Your task to perform on an android device: Clear the shopping cart on walmart. Add "jbl charge 4" to the cart on walmart, then select checkout. Image 0: 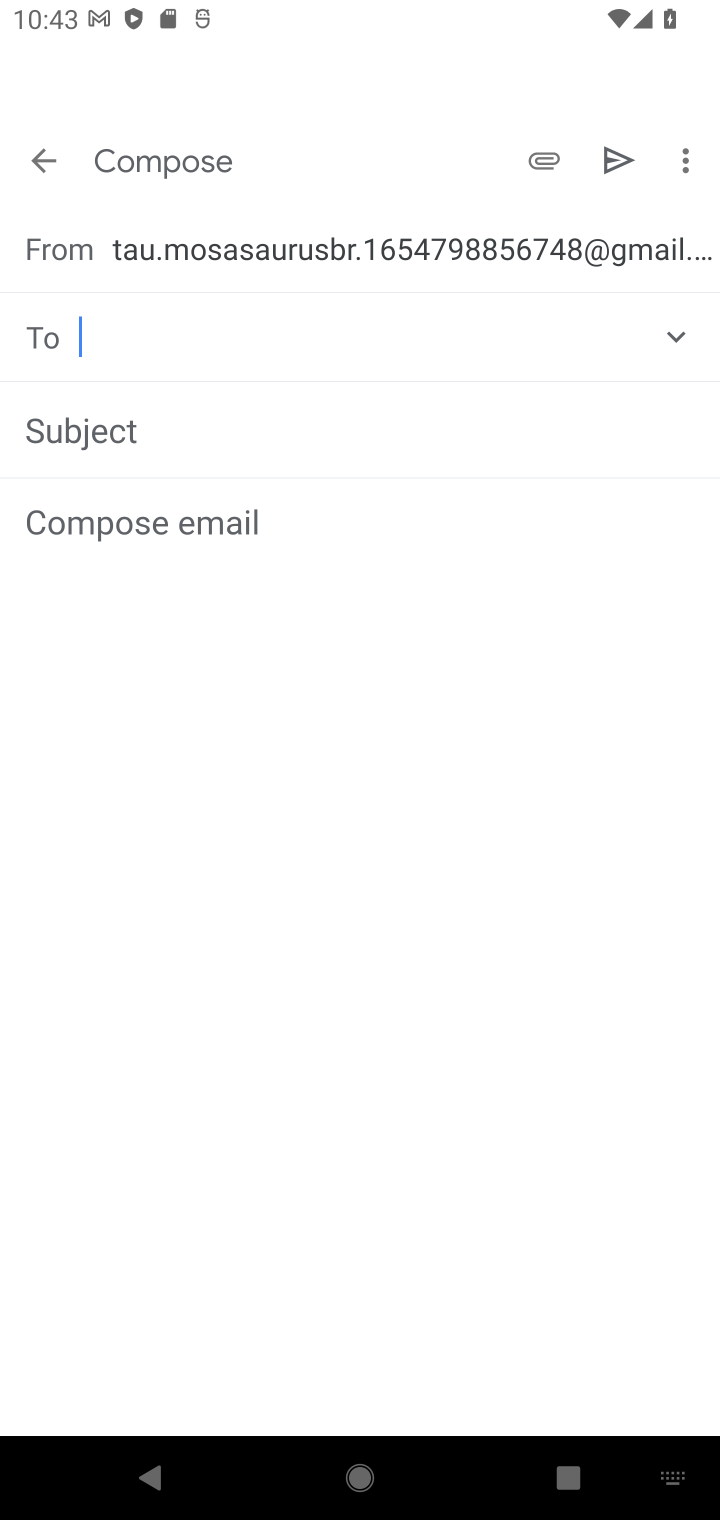
Step 0: press home button
Your task to perform on an android device: Clear the shopping cart on walmart. Add "jbl charge 4" to the cart on walmart, then select checkout. Image 1: 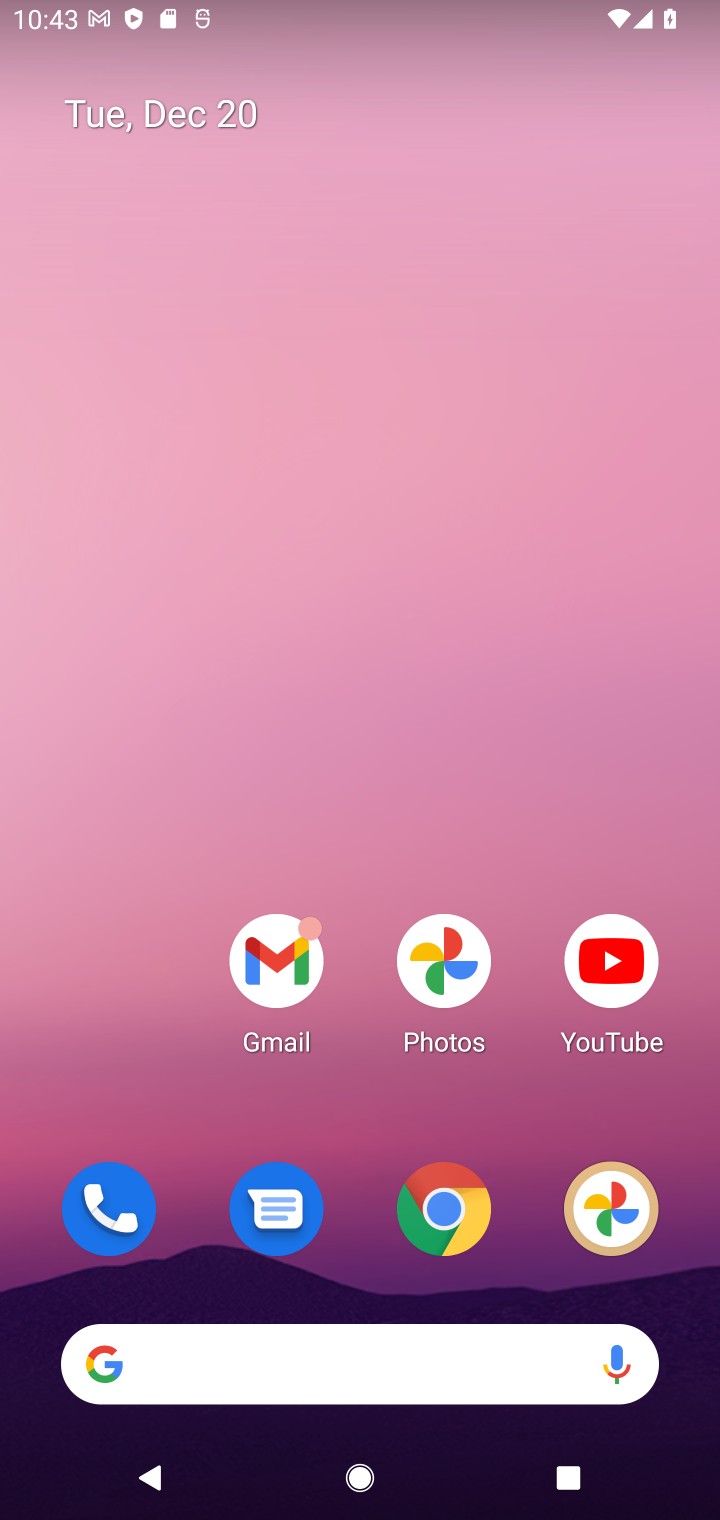
Step 1: click (452, 1213)
Your task to perform on an android device: Clear the shopping cart on walmart. Add "jbl charge 4" to the cart on walmart, then select checkout. Image 2: 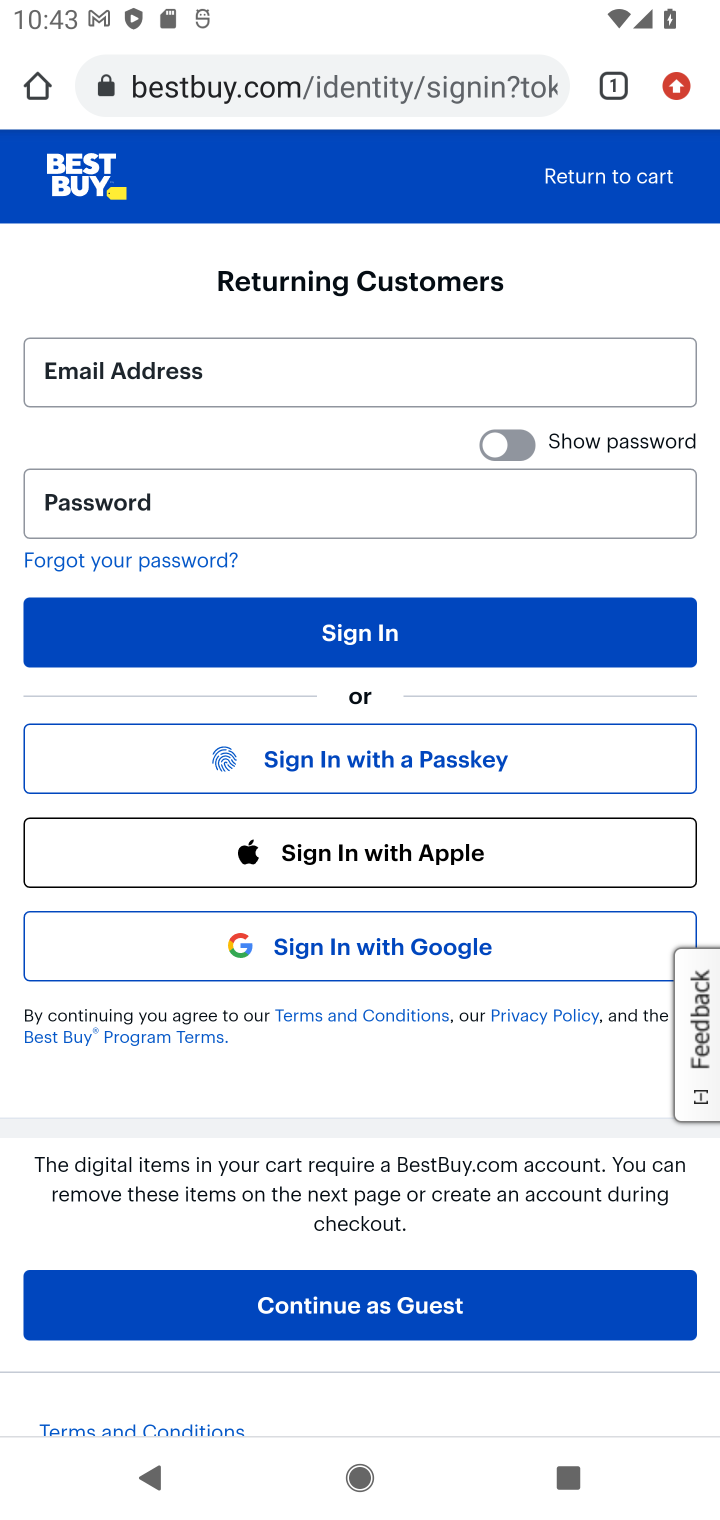
Step 2: click (256, 70)
Your task to perform on an android device: Clear the shopping cart on walmart. Add "jbl charge 4" to the cart on walmart, then select checkout. Image 3: 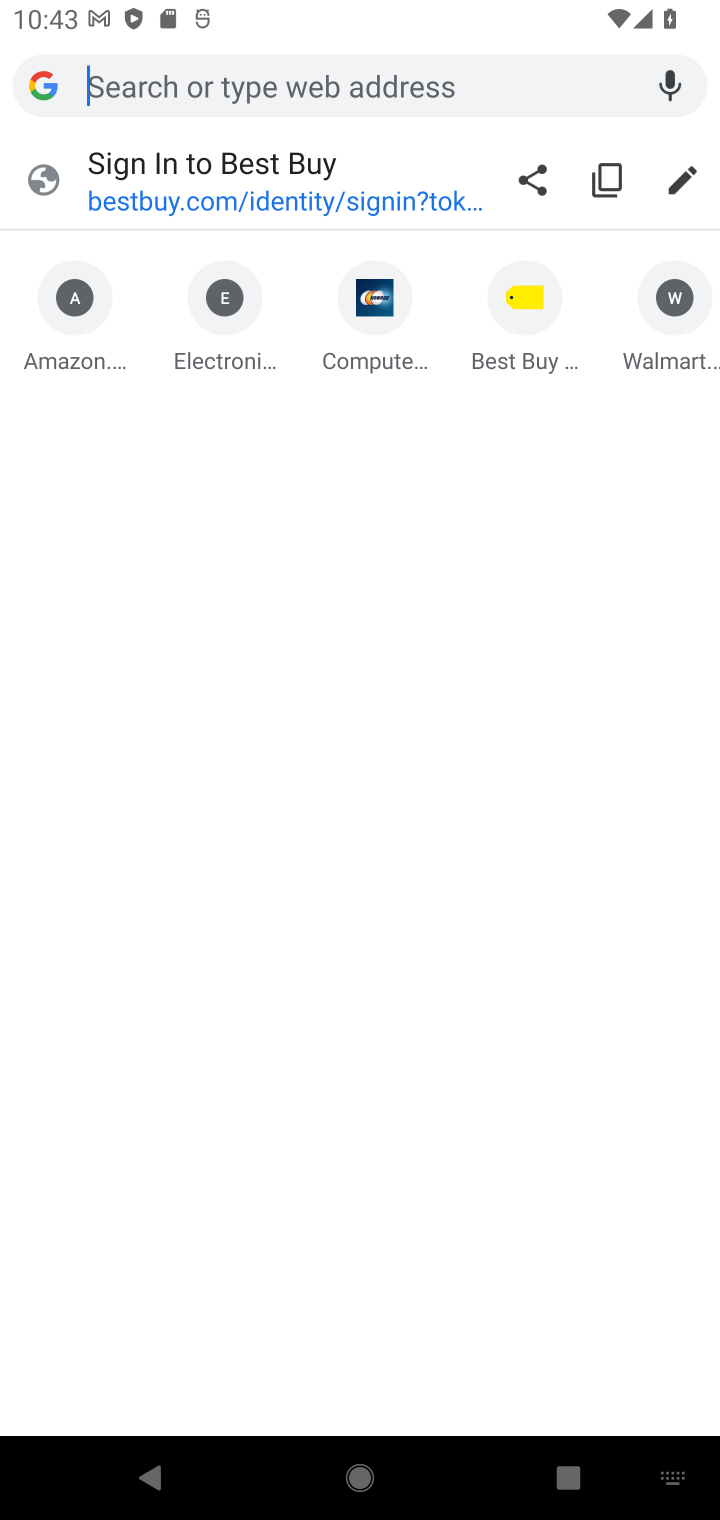
Step 3: type "walmart.com"
Your task to perform on an android device: Clear the shopping cart on walmart. Add "jbl charge 4" to the cart on walmart, then select checkout. Image 4: 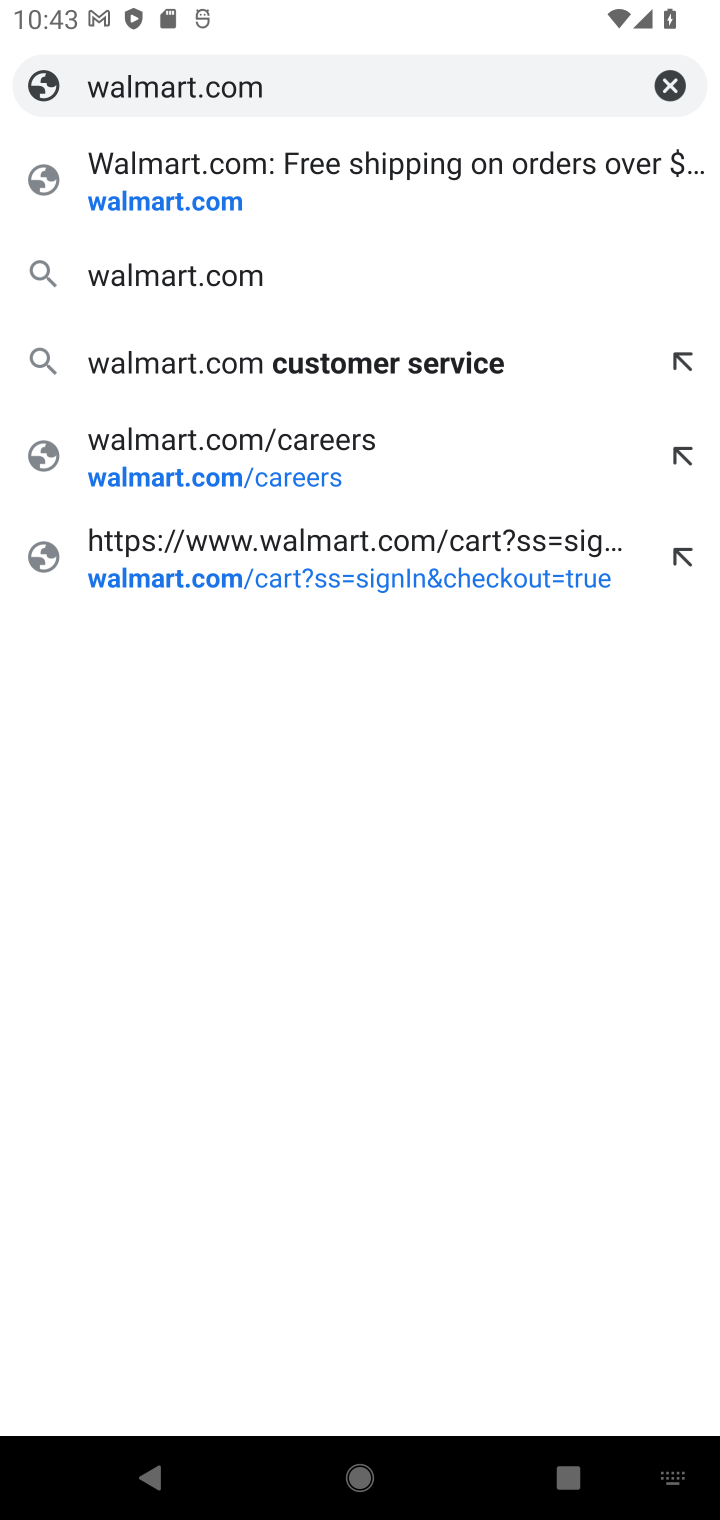
Step 4: click (150, 205)
Your task to perform on an android device: Clear the shopping cart on walmart. Add "jbl charge 4" to the cart on walmart, then select checkout. Image 5: 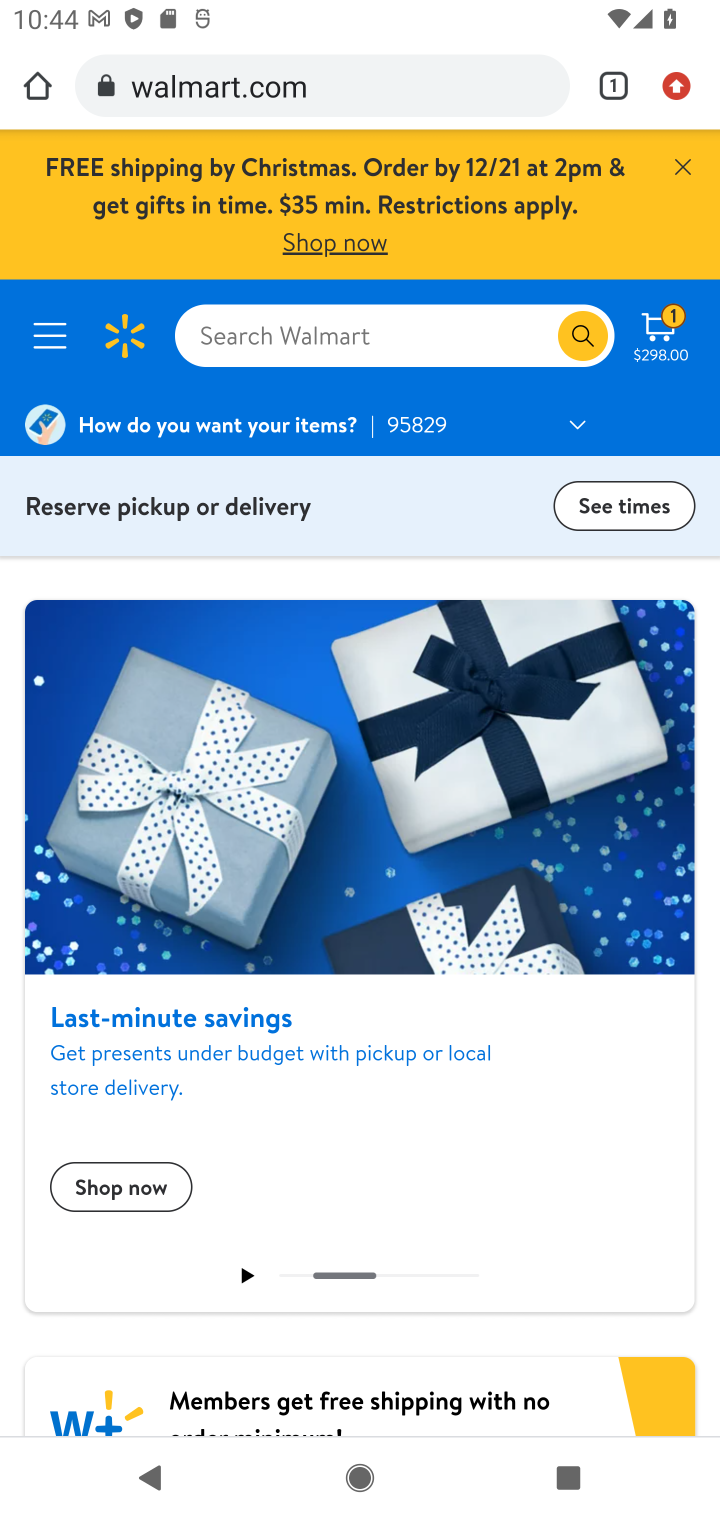
Step 5: click (655, 334)
Your task to perform on an android device: Clear the shopping cart on walmart. Add "jbl charge 4" to the cart on walmart, then select checkout. Image 6: 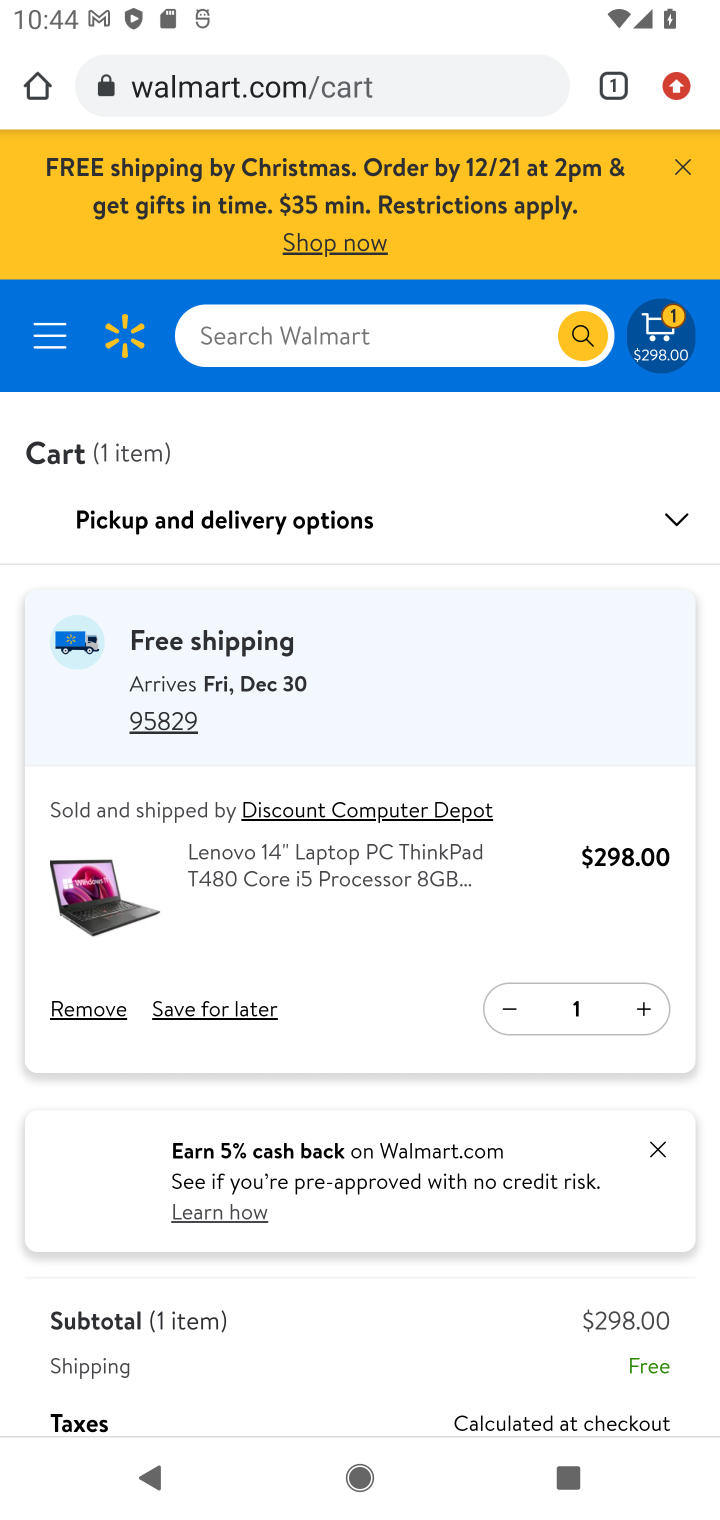
Step 6: click (72, 1008)
Your task to perform on an android device: Clear the shopping cart on walmart. Add "jbl charge 4" to the cart on walmart, then select checkout. Image 7: 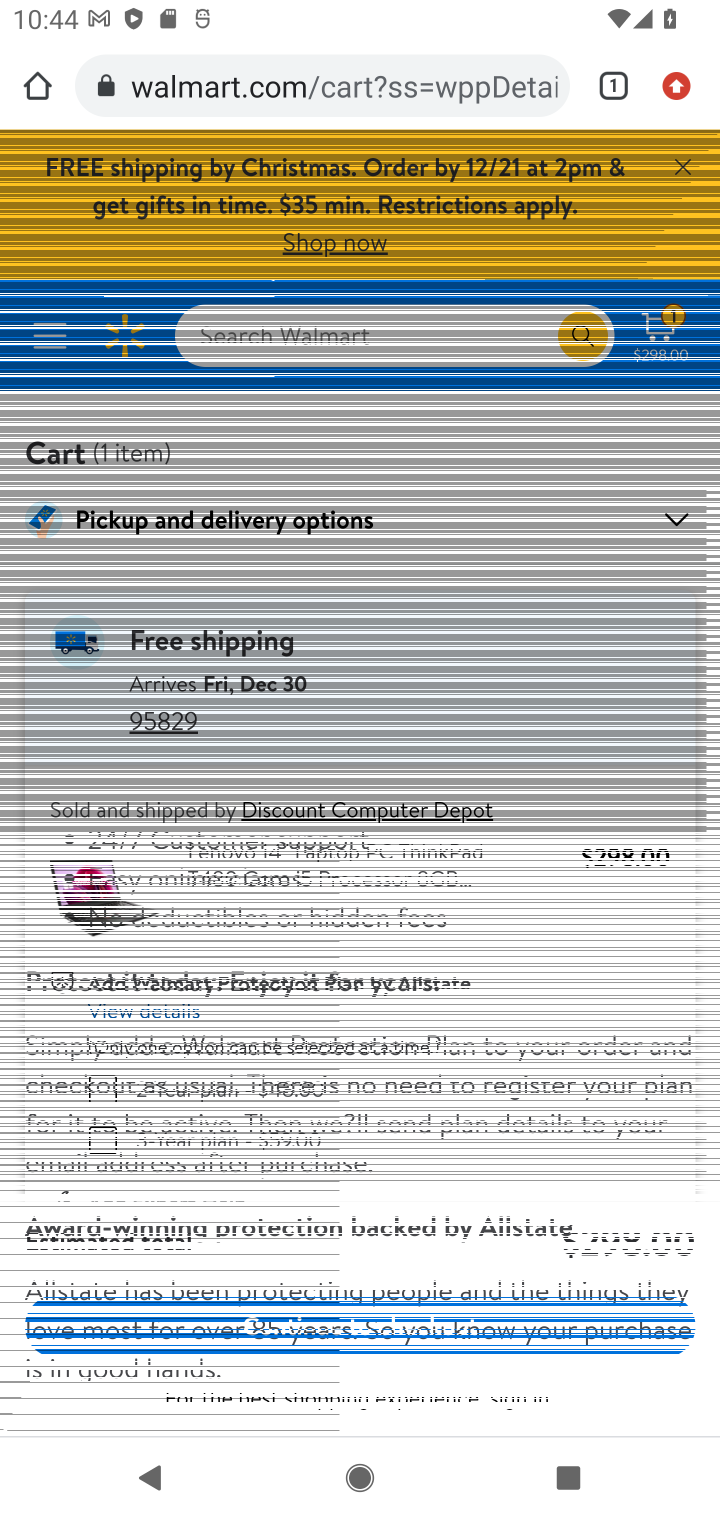
Step 7: drag from (427, 936) to (423, 563)
Your task to perform on an android device: Clear the shopping cart on walmart. Add "jbl charge 4" to the cart on walmart, then select checkout. Image 8: 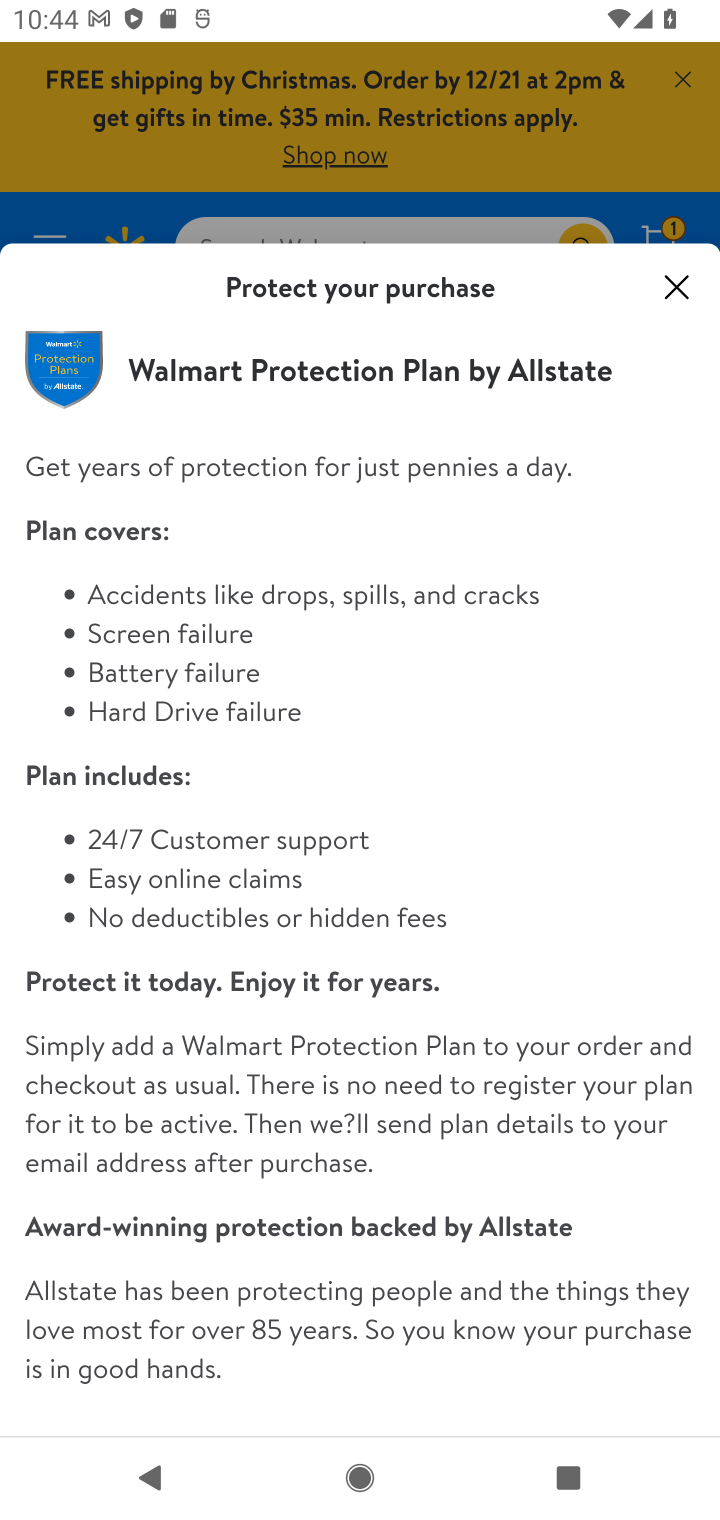
Step 8: click (679, 284)
Your task to perform on an android device: Clear the shopping cart on walmart. Add "jbl charge 4" to the cart on walmart, then select checkout. Image 9: 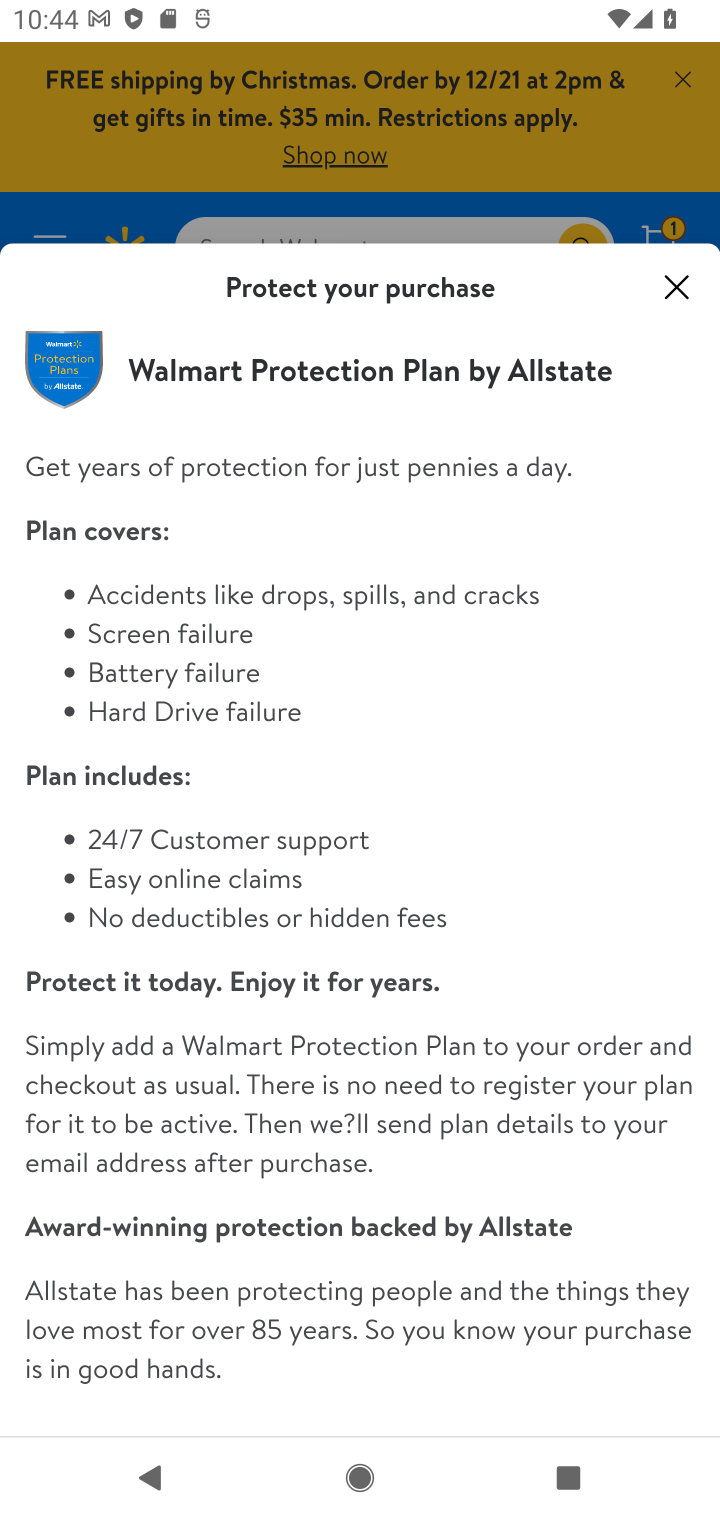
Step 9: click (673, 285)
Your task to perform on an android device: Clear the shopping cart on walmart. Add "jbl charge 4" to the cart on walmart, then select checkout. Image 10: 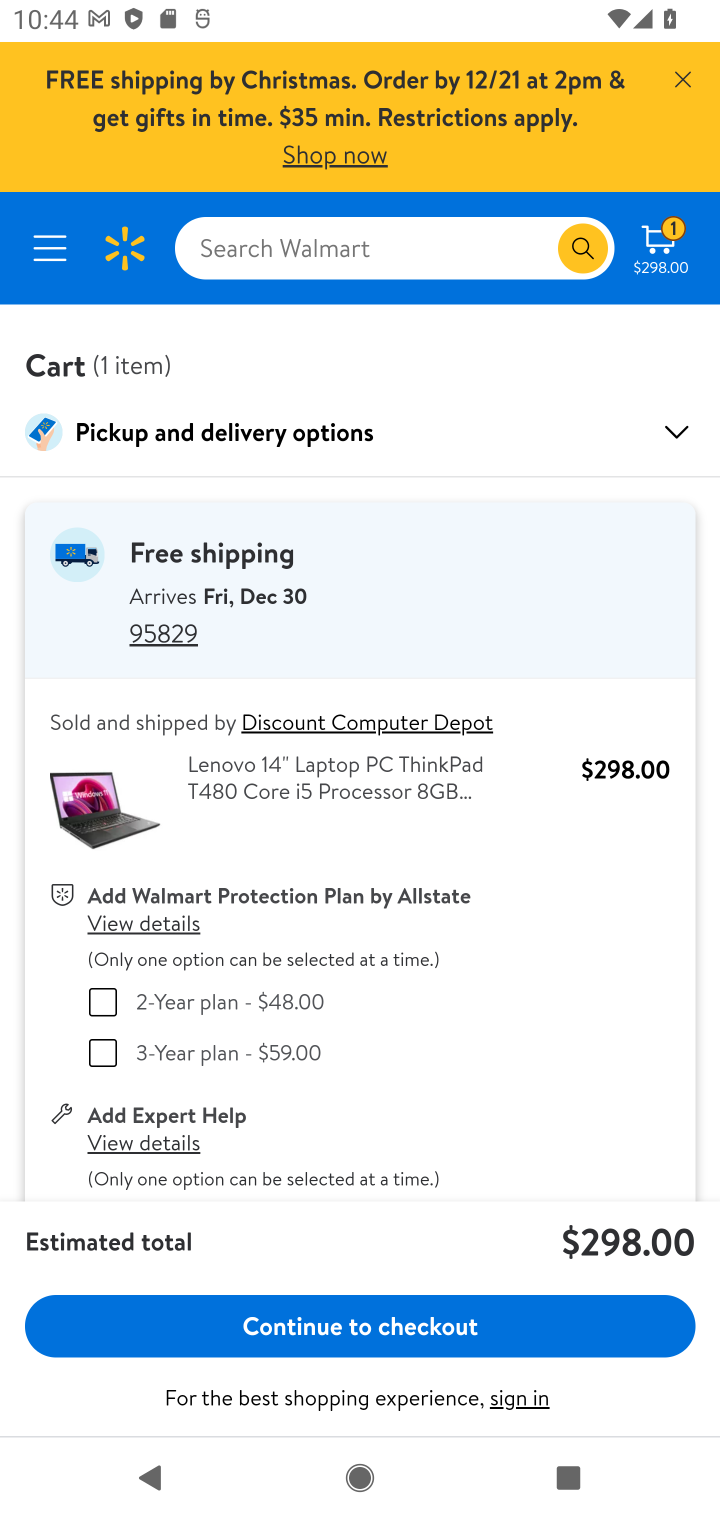
Step 10: drag from (110, 1076) to (163, 631)
Your task to perform on an android device: Clear the shopping cart on walmart. Add "jbl charge 4" to the cart on walmart, then select checkout. Image 11: 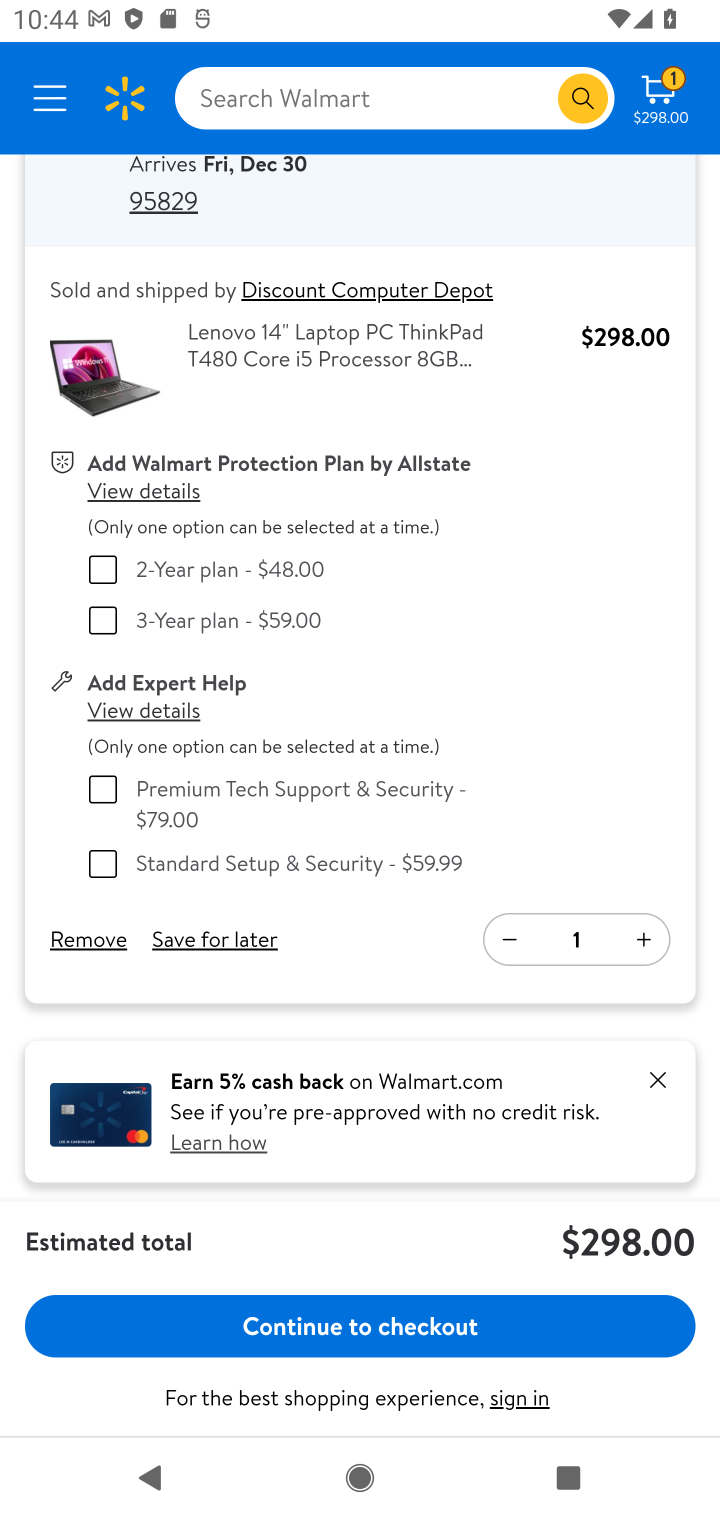
Step 11: click (69, 940)
Your task to perform on an android device: Clear the shopping cart on walmart. Add "jbl charge 4" to the cart on walmart, then select checkout. Image 12: 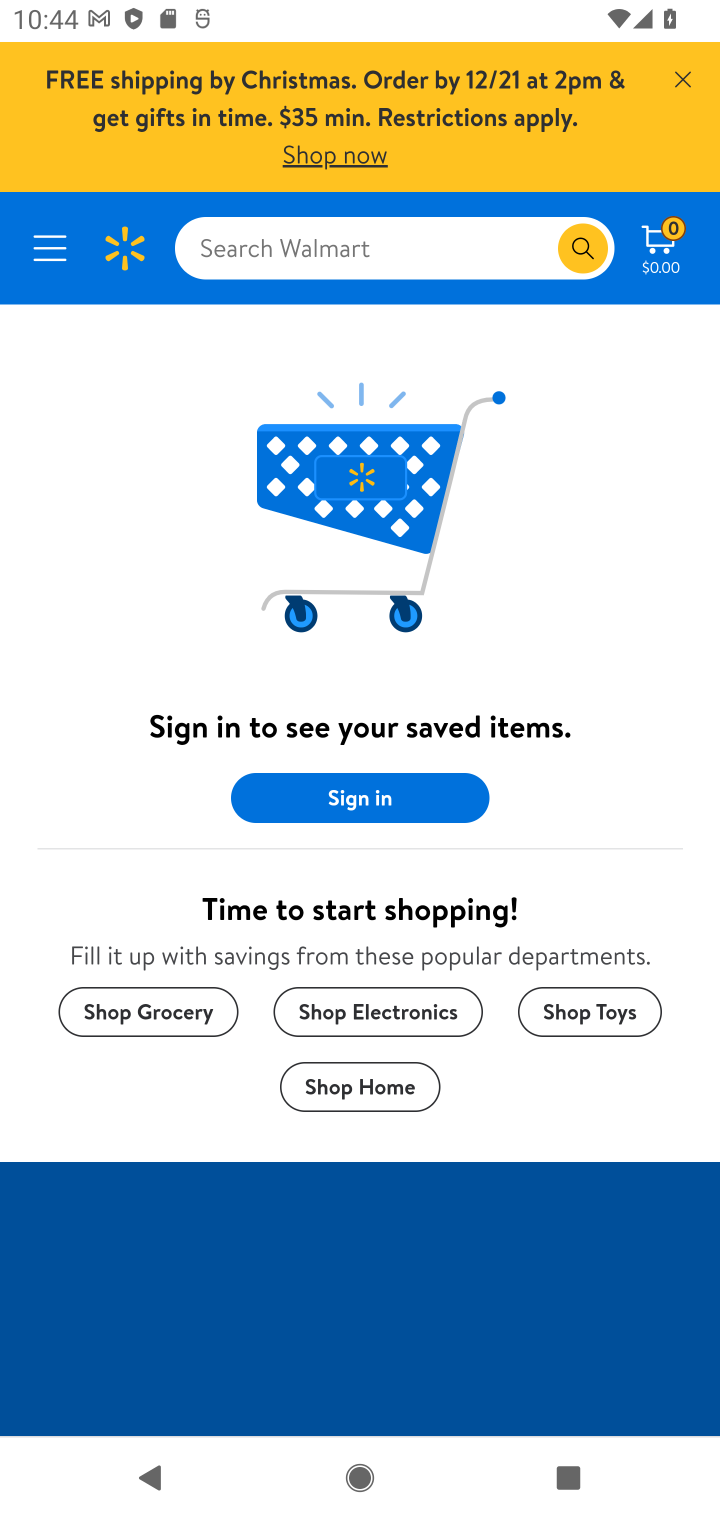
Step 12: click (216, 262)
Your task to perform on an android device: Clear the shopping cart on walmart. Add "jbl charge 4" to the cart on walmart, then select checkout. Image 13: 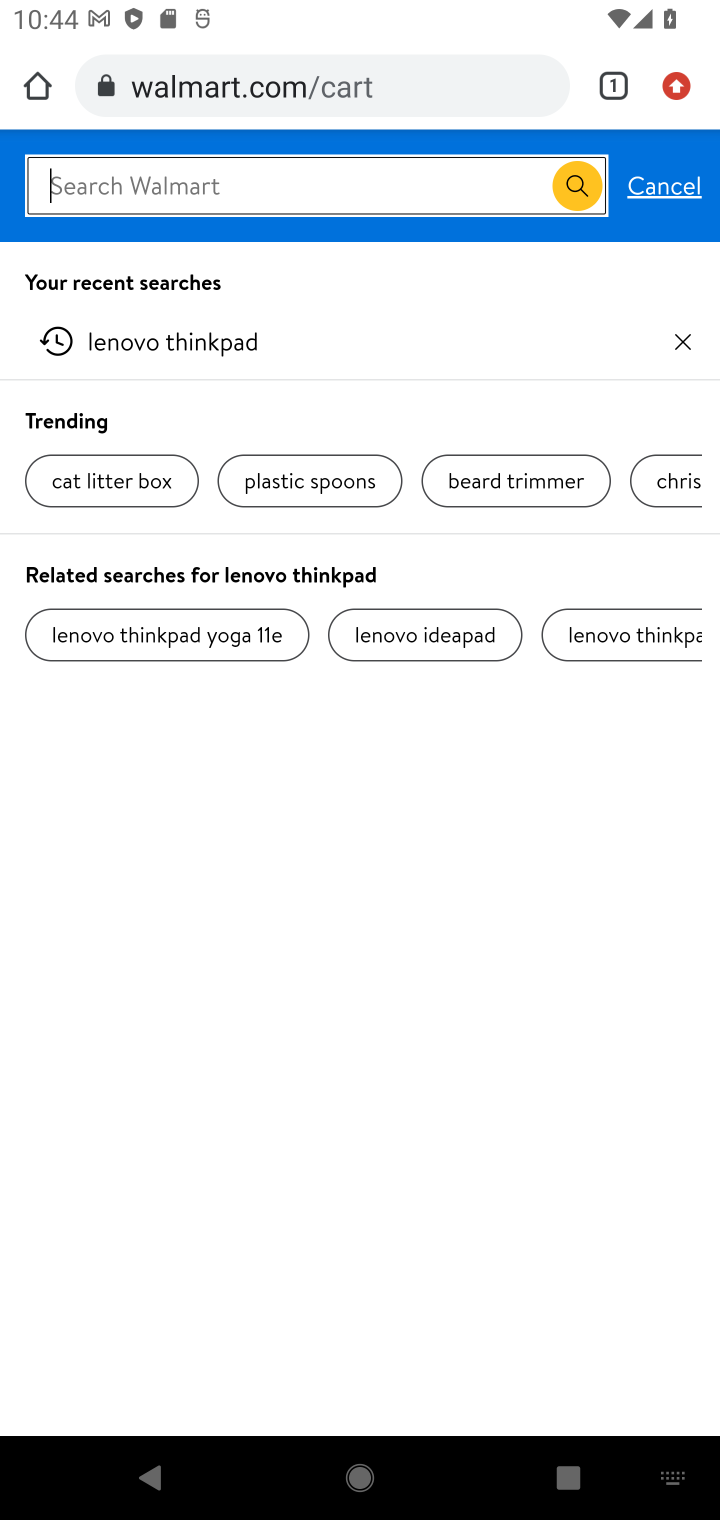
Step 13: type "jbl charge 4"
Your task to perform on an android device: Clear the shopping cart on walmart. Add "jbl charge 4" to the cart on walmart, then select checkout. Image 14: 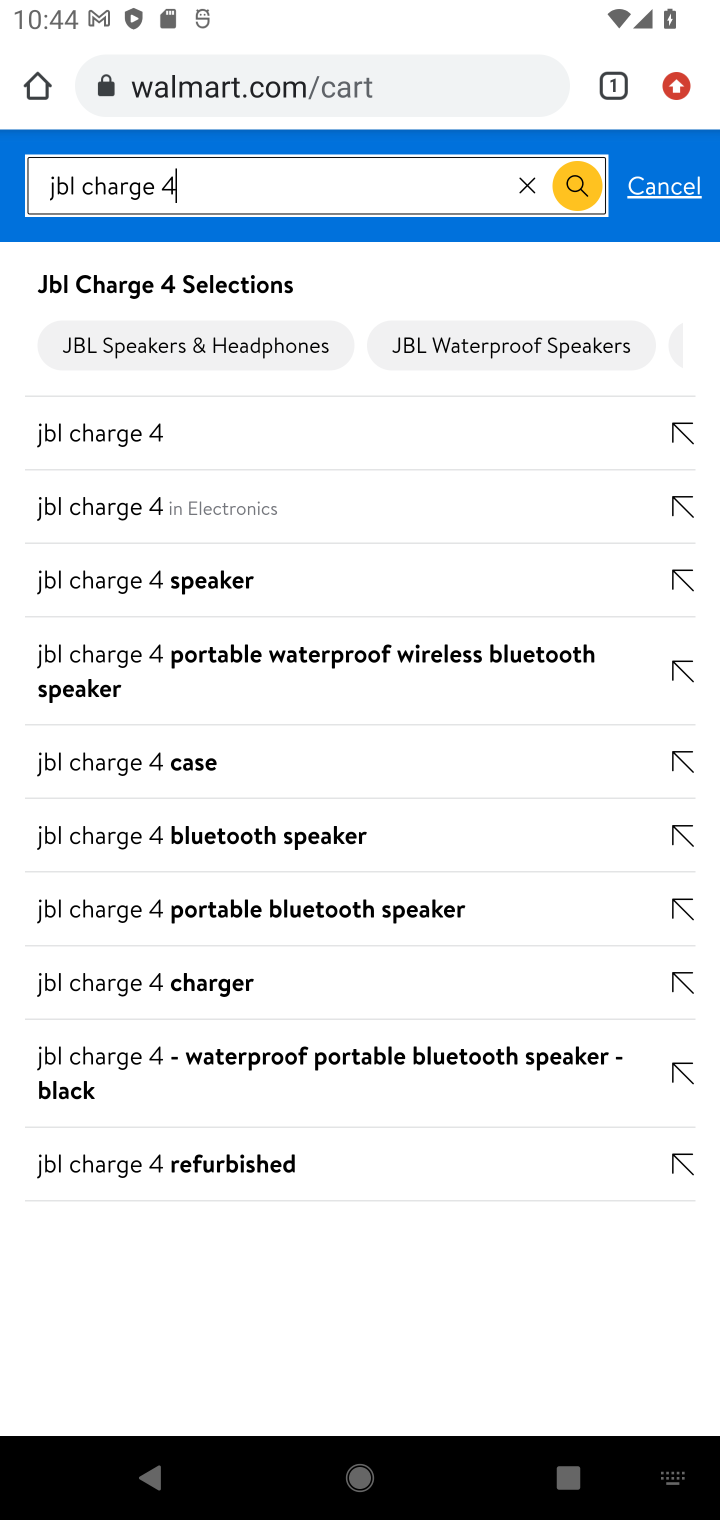
Step 14: click (99, 434)
Your task to perform on an android device: Clear the shopping cart on walmart. Add "jbl charge 4" to the cart on walmart, then select checkout. Image 15: 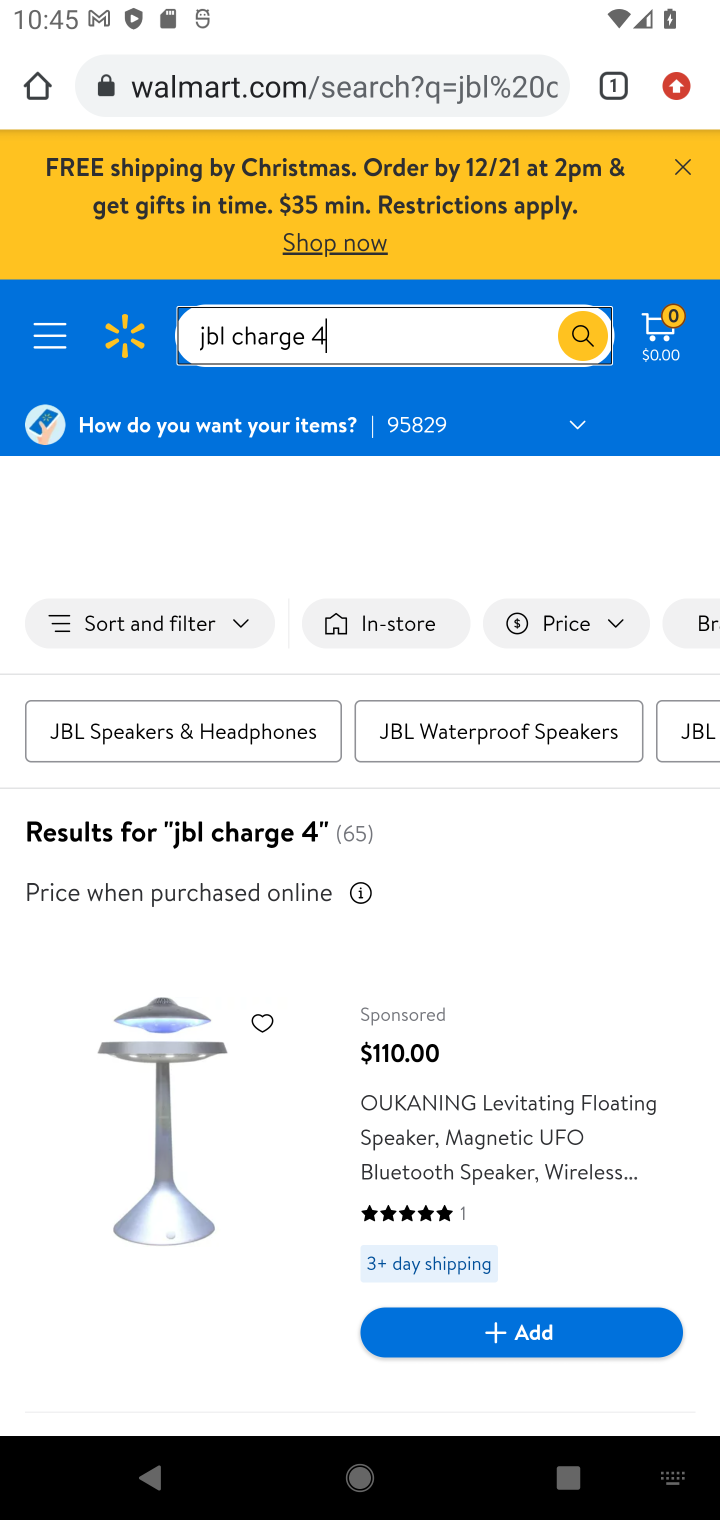
Step 15: drag from (347, 1021) to (334, 596)
Your task to perform on an android device: Clear the shopping cart on walmart. Add "jbl charge 4" to the cart on walmart, then select checkout. Image 16: 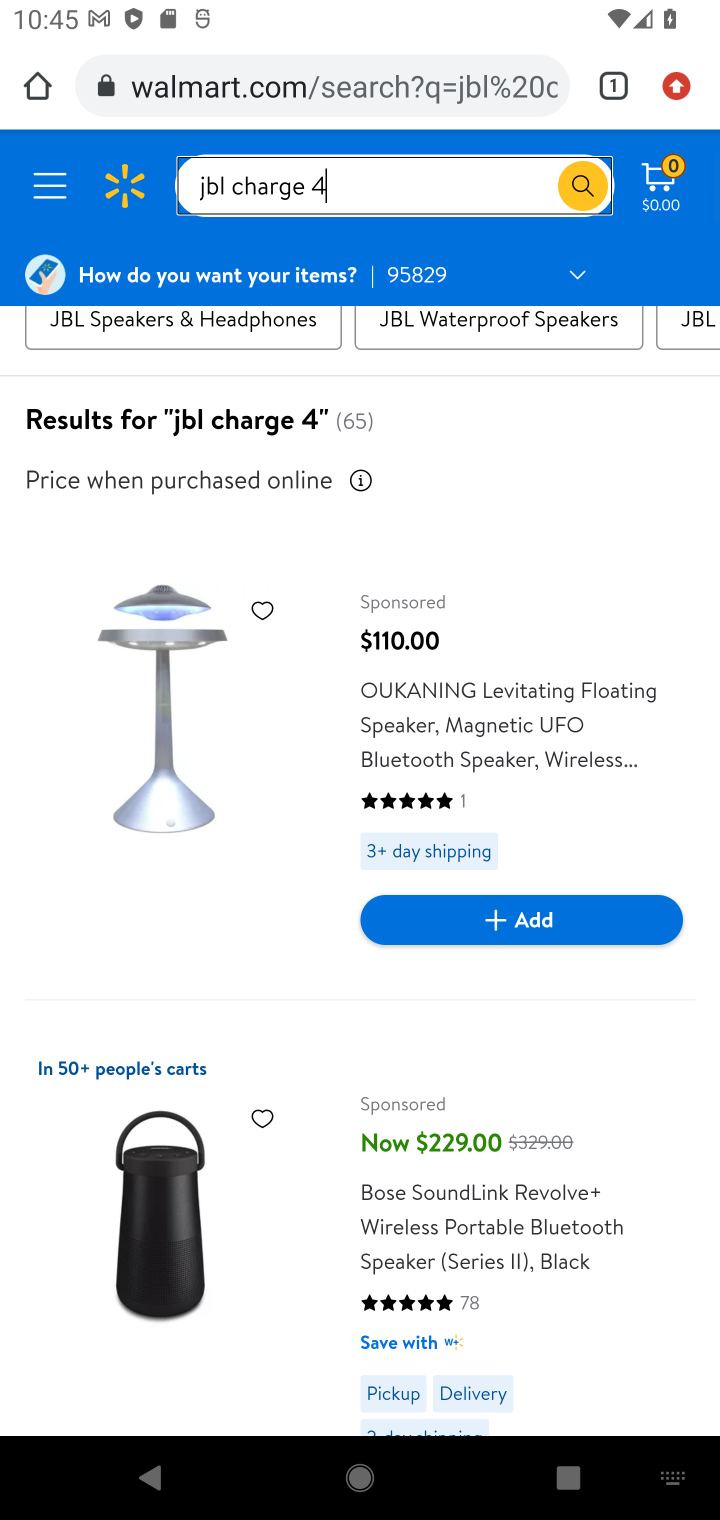
Step 16: drag from (344, 1109) to (347, 565)
Your task to perform on an android device: Clear the shopping cart on walmart. Add "jbl charge 4" to the cart on walmart, then select checkout. Image 17: 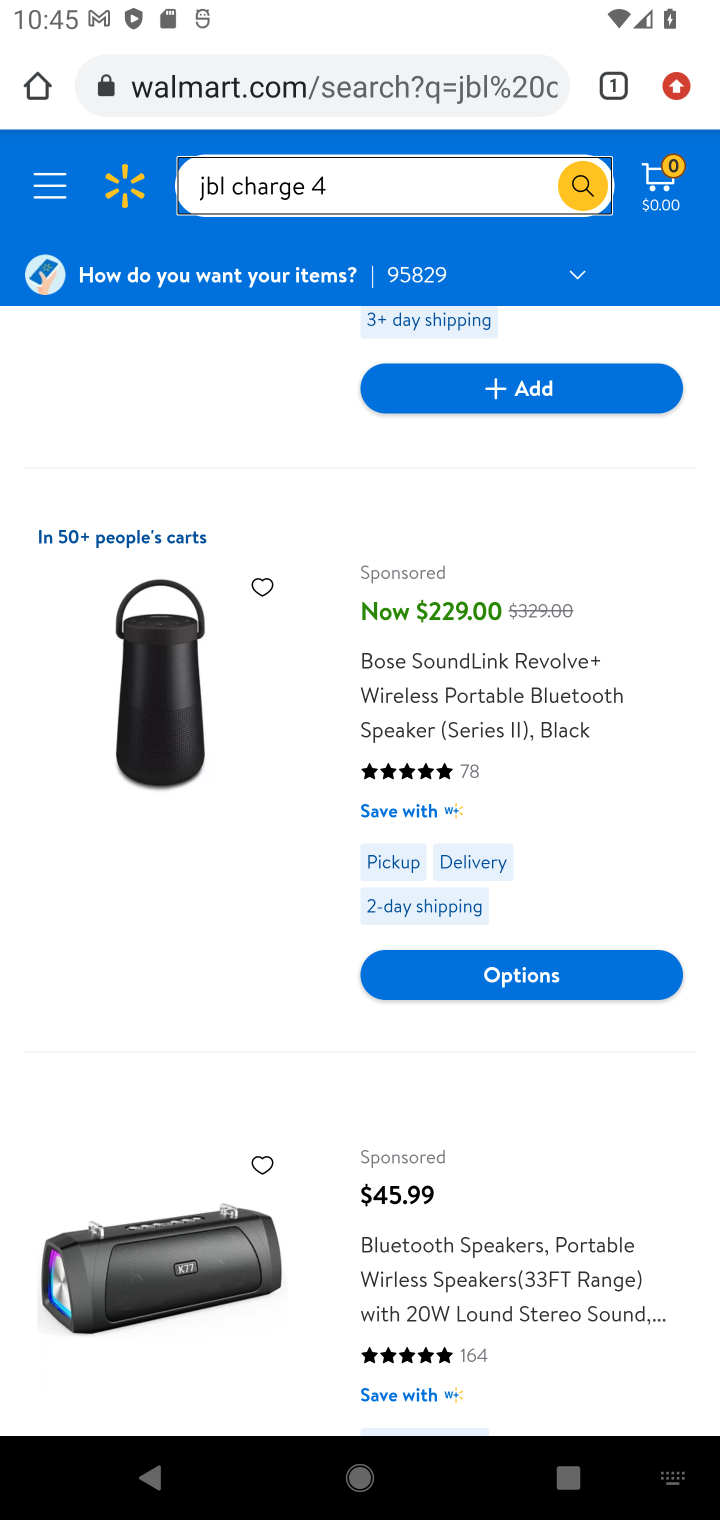
Step 17: drag from (330, 1173) to (247, 616)
Your task to perform on an android device: Clear the shopping cart on walmart. Add "jbl charge 4" to the cart on walmart, then select checkout. Image 18: 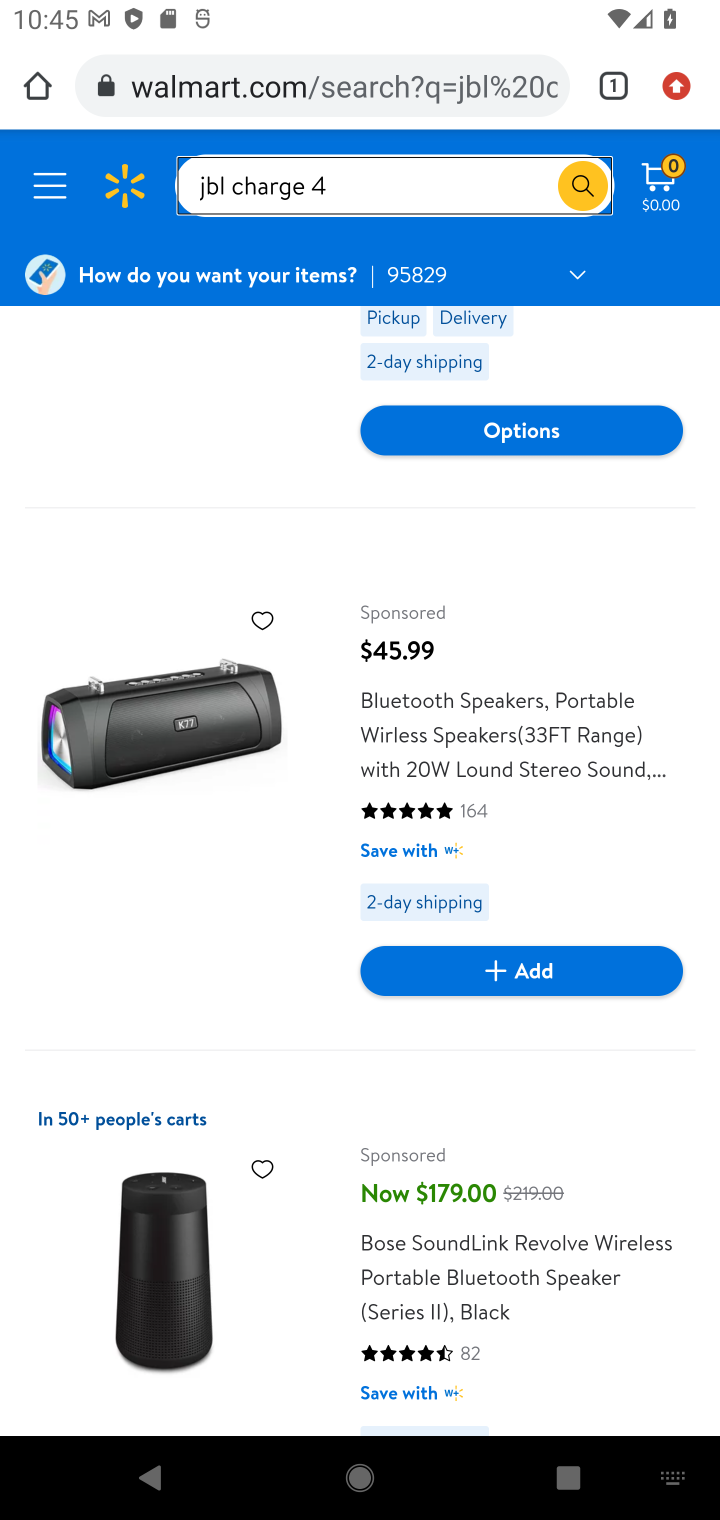
Step 18: drag from (319, 1215) to (303, 521)
Your task to perform on an android device: Clear the shopping cart on walmart. Add "jbl charge 4" to the cart on walmart, then select checkout. Image 19: 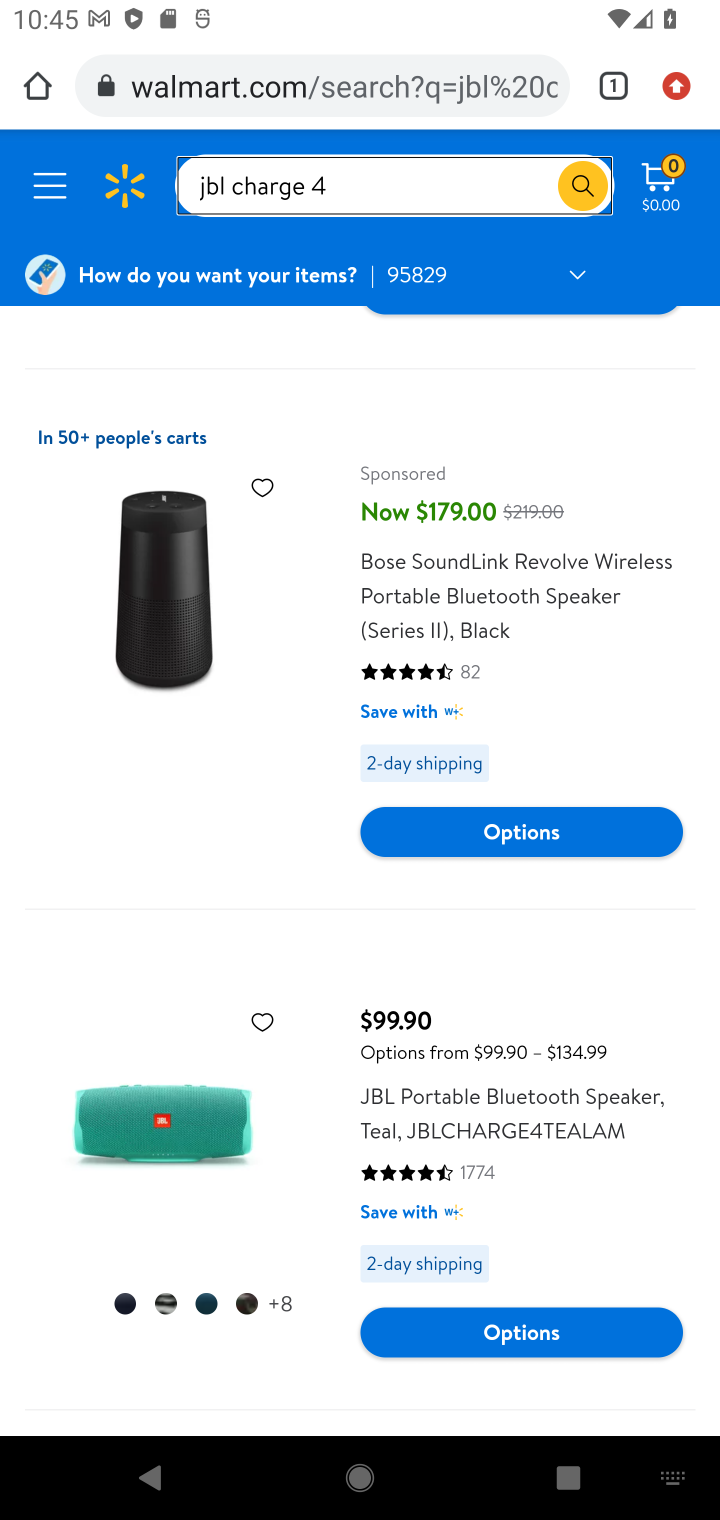
Step 19: drag from (318, 1177) to (318, 881)
Your task to perform on an android device: Clear the shopping cart on walmart. Add "jbl charge 4" to the cart on walmart, then select checkout. Image 20: 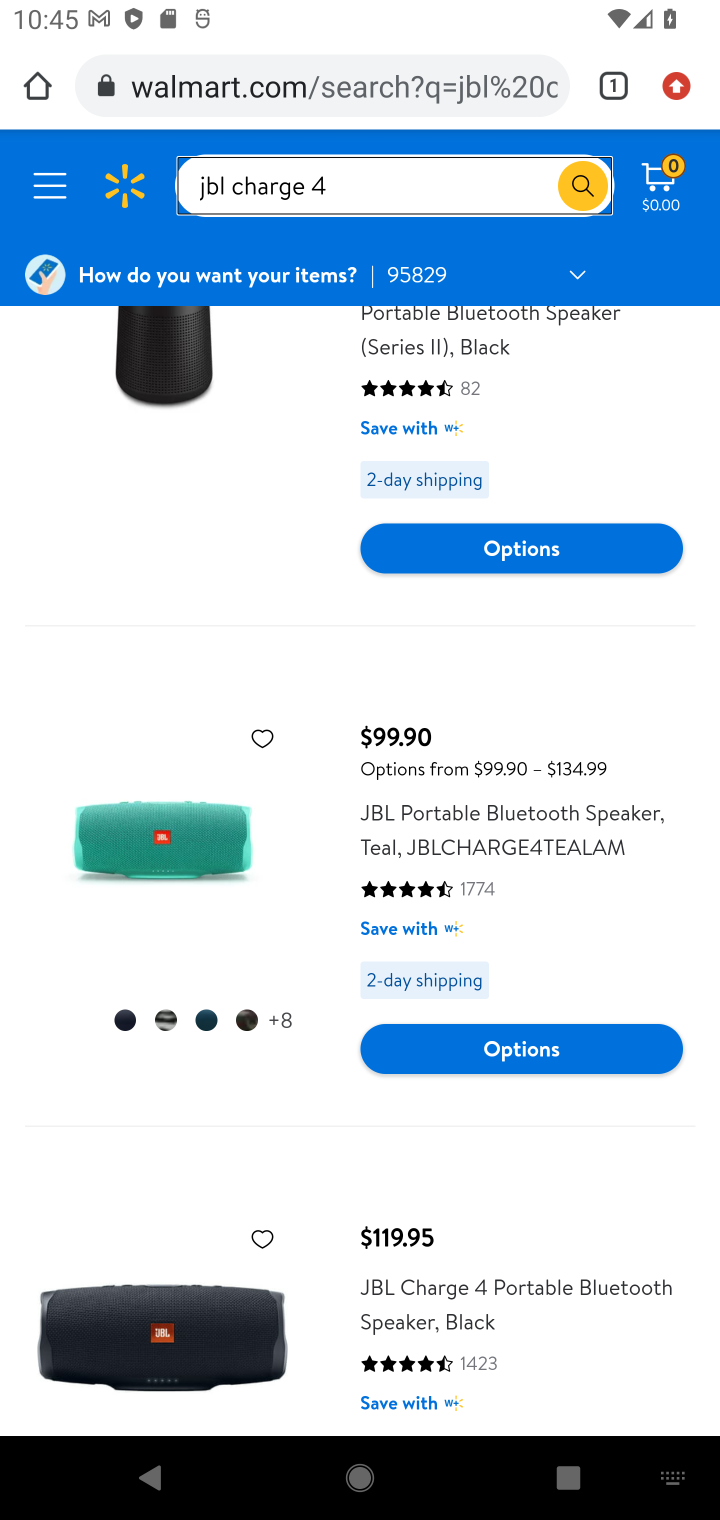
Step 20: click (462, 842)
Your task to perform on an android device: Clear the shopping cart on walmart. Add "jbl charge 4" to the cart on walmart, then select checkout. Image 21: 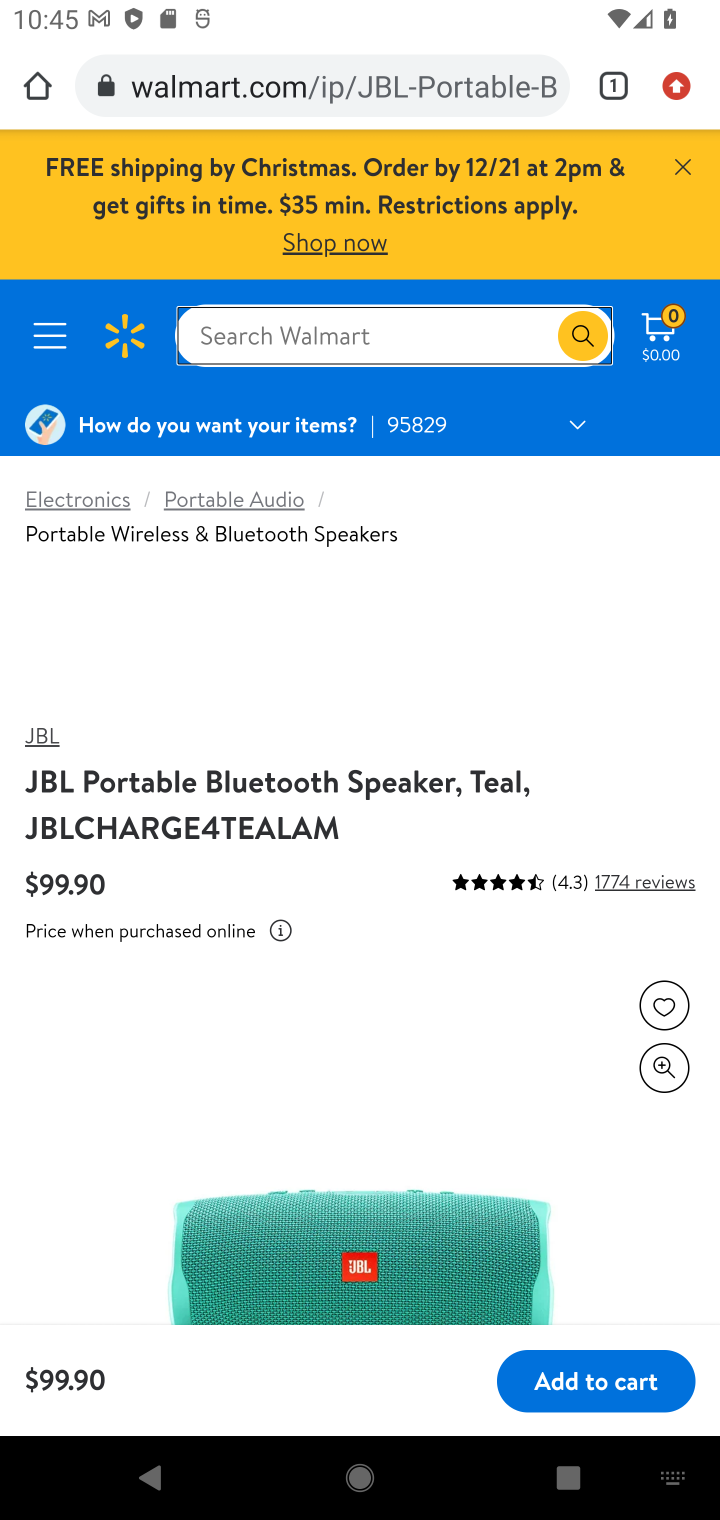
Step 21: click (605, 1388)
Your task to perform on an android device: Clear the shopping cart on walmart. Add "jbl charge 4" to the cart on walmart, then select checkout. Image 22: 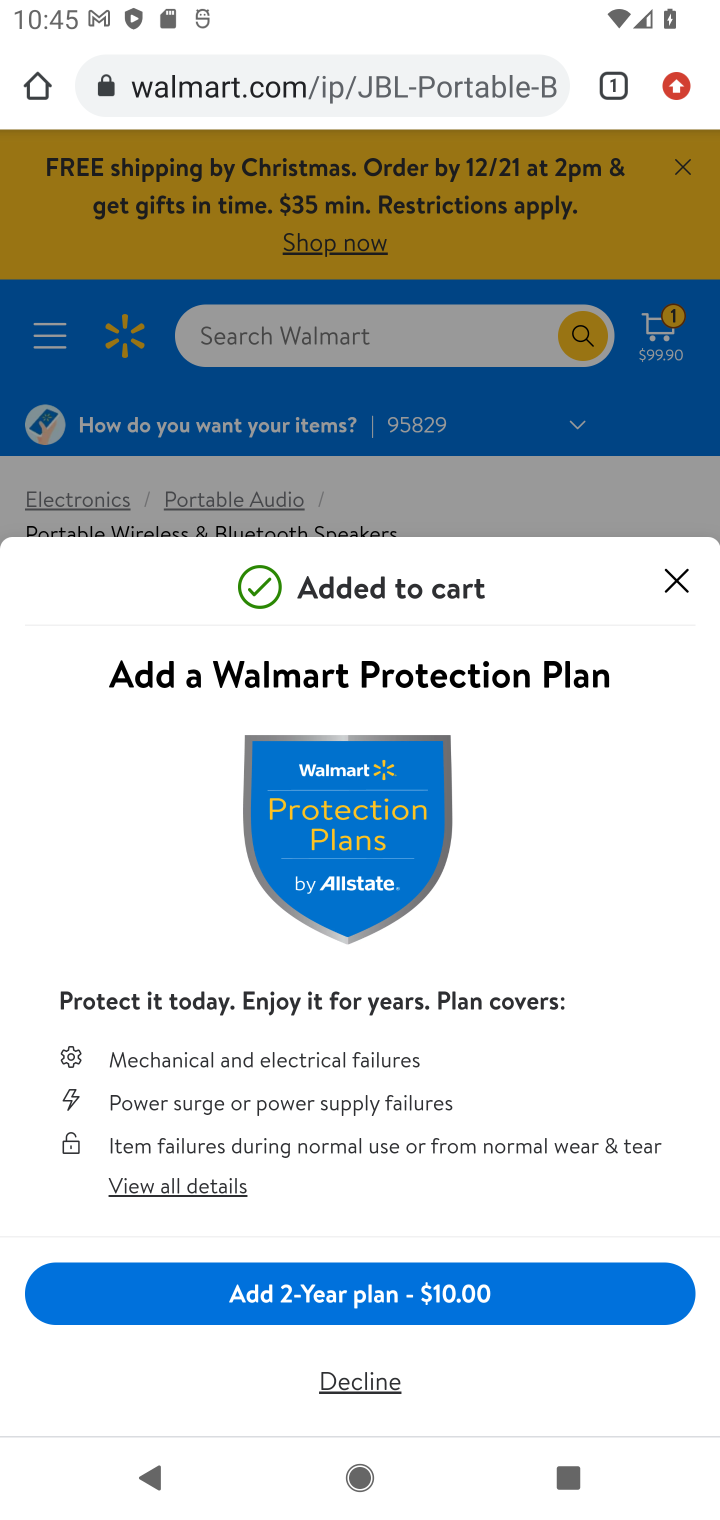
Step 22: click (654, 339)
Your task to perform on an android device: Clear the shopping cart on walmart. Add "jbl charge 4" to the cart on walmart, then select checkout. Image 23: 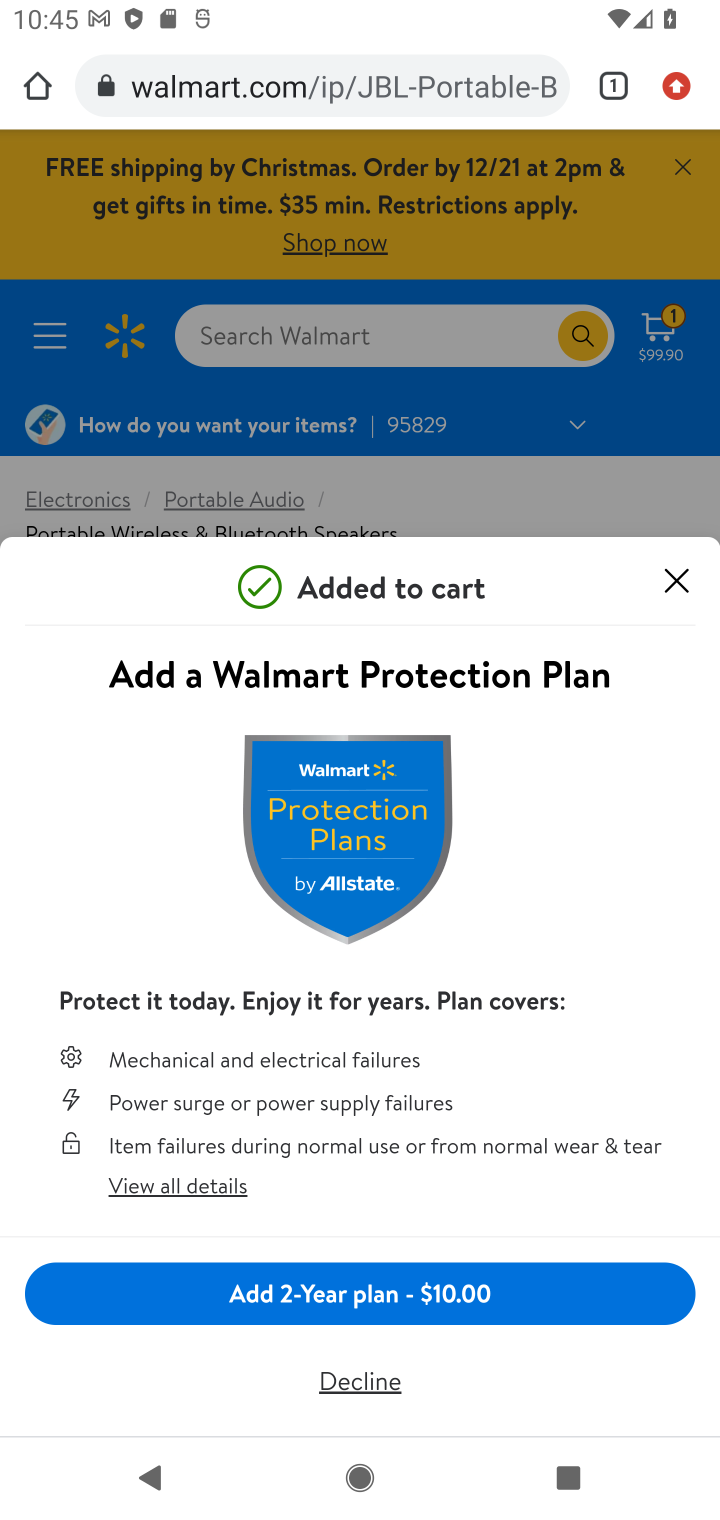
Step 23: click (681, 586)
Your task to perform on an android device: Clear the shopping cart on walmart. Add "jbl charge 4" to the cart on walmart, then select checkout. Image 24: 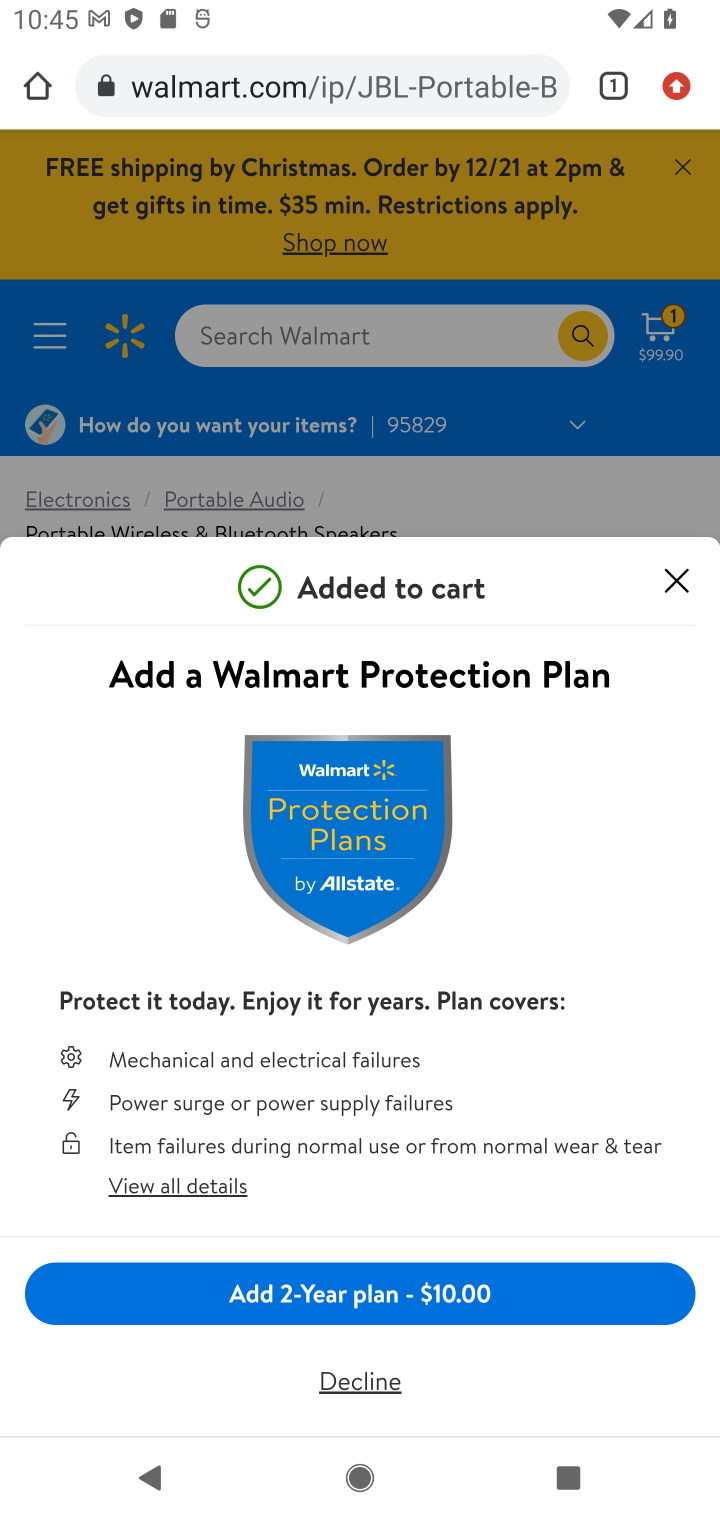
Step 24: click (657, 338)
Your task to perform on an android device: Clear the shopping cart on walmart. Add "jbl charge 4" to the cart on walmart, then select checkout. Image 25: 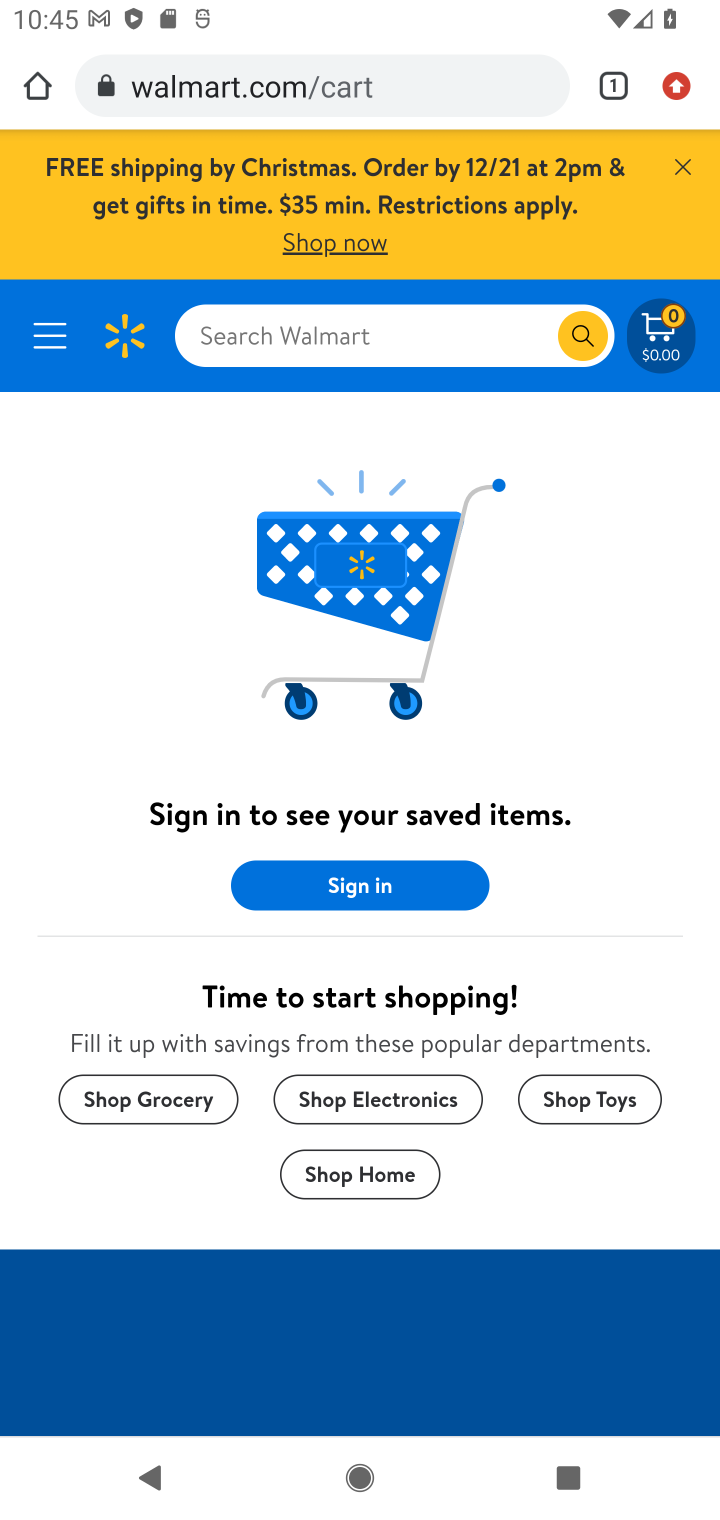
Step 25: click (358, 331)
Your task to perform on an android device: Clear the shopping cart on walmart. Add "jbl charge 4" to the cart on walmart, then select checkout. Image 26: 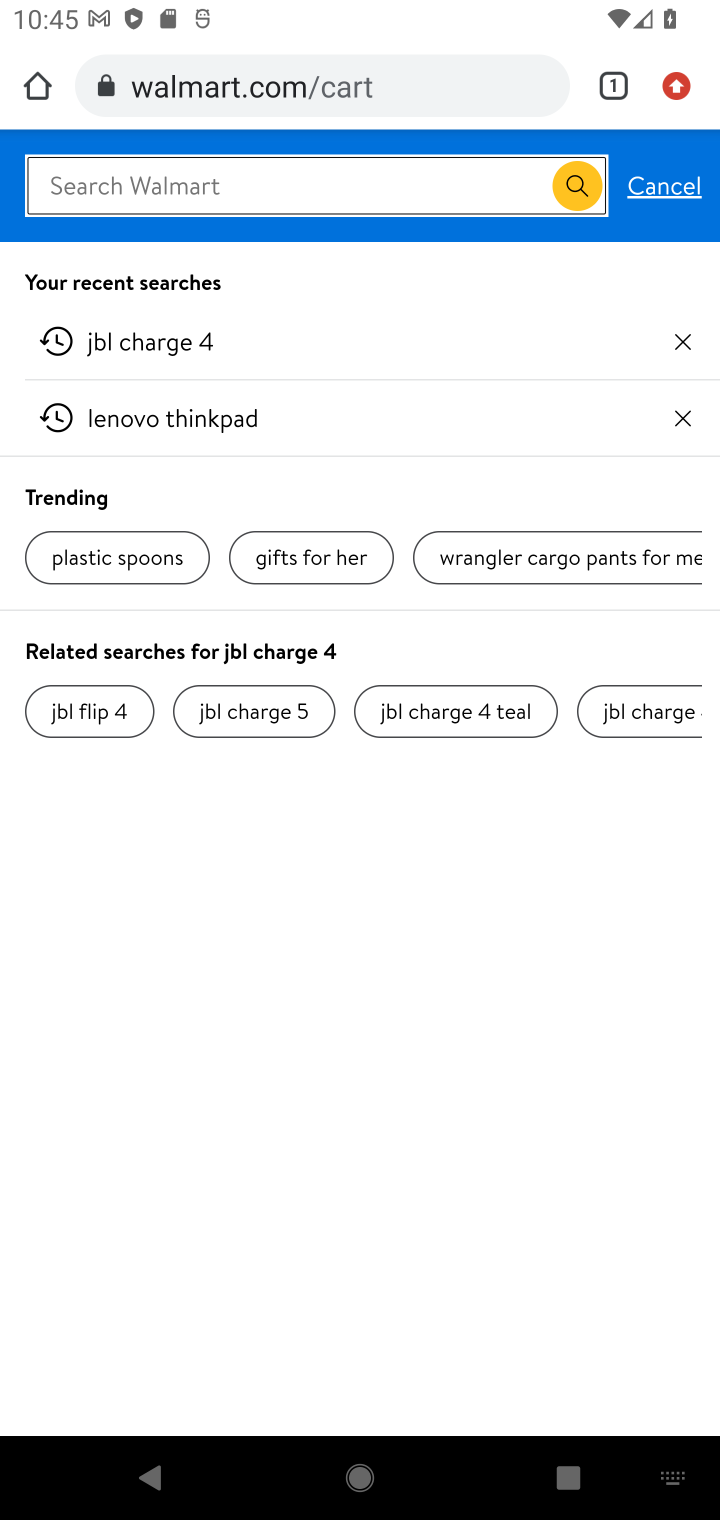
Step 26: click (152, 356)
Your task to perform on an android device: Clear the shopping cart on walmart. Add "jbl charge 4" to the cart on walmart, then select checkout. Image 27: 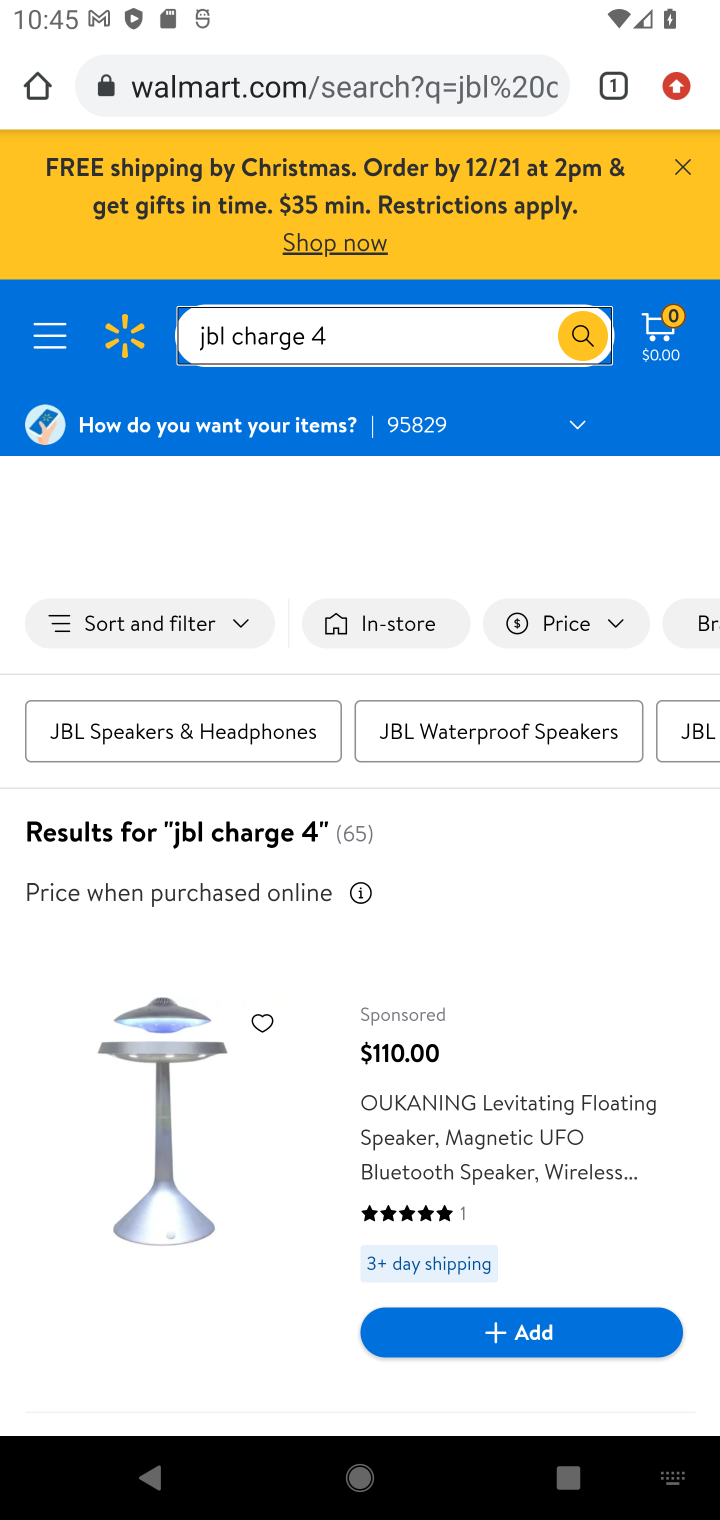
Step 27: drag from (248, 990) to (200, 331)
Your task to perform on an android device: Clear the shopping cart on walmart. Add "jbl charge 4" to the cart on walmart, then select checkout. Image 28: 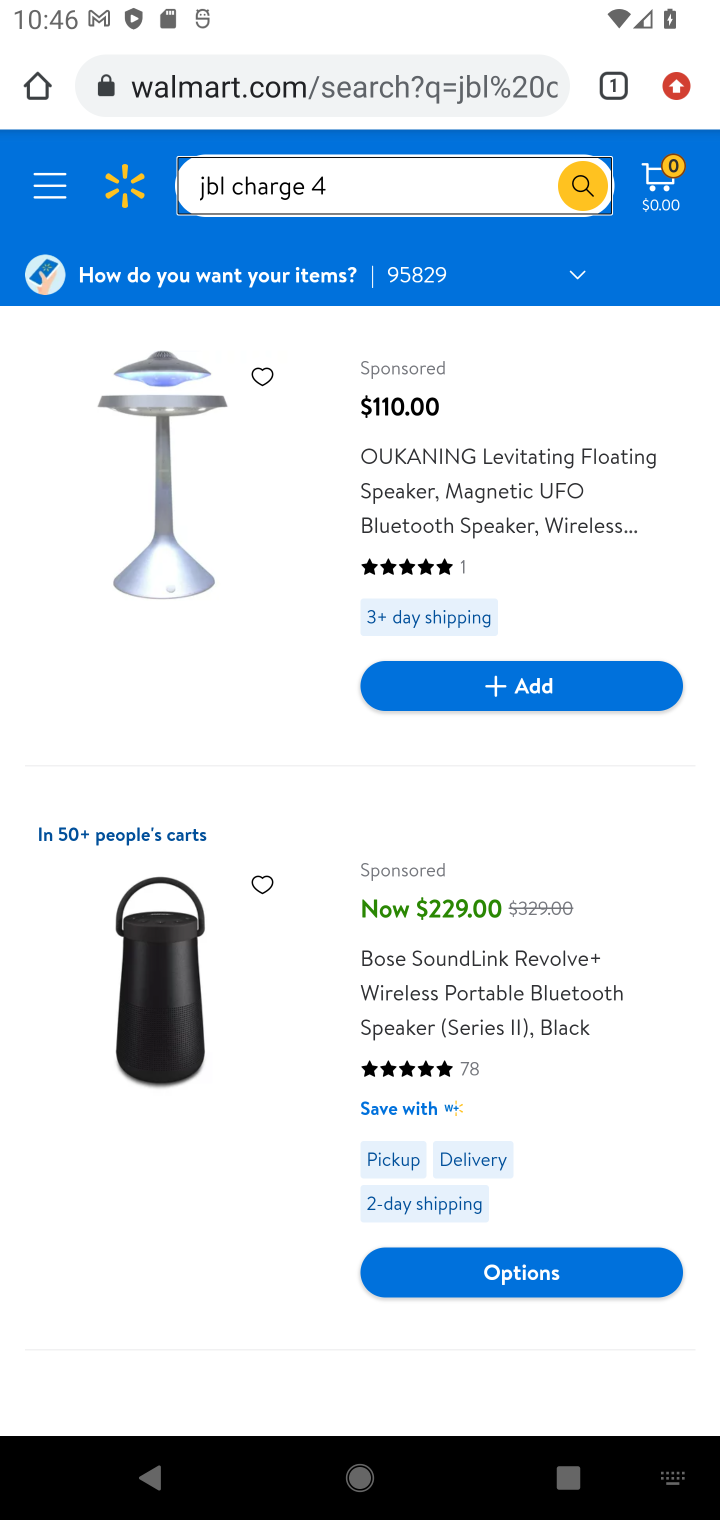
Step 28: drag from (420, 1082) to (381, 465)
Your task to perform on an android device: Clear the shopping cart on walmart. Add "jbl charge 4" to the cart on walmart, then select checkout. Image 29: 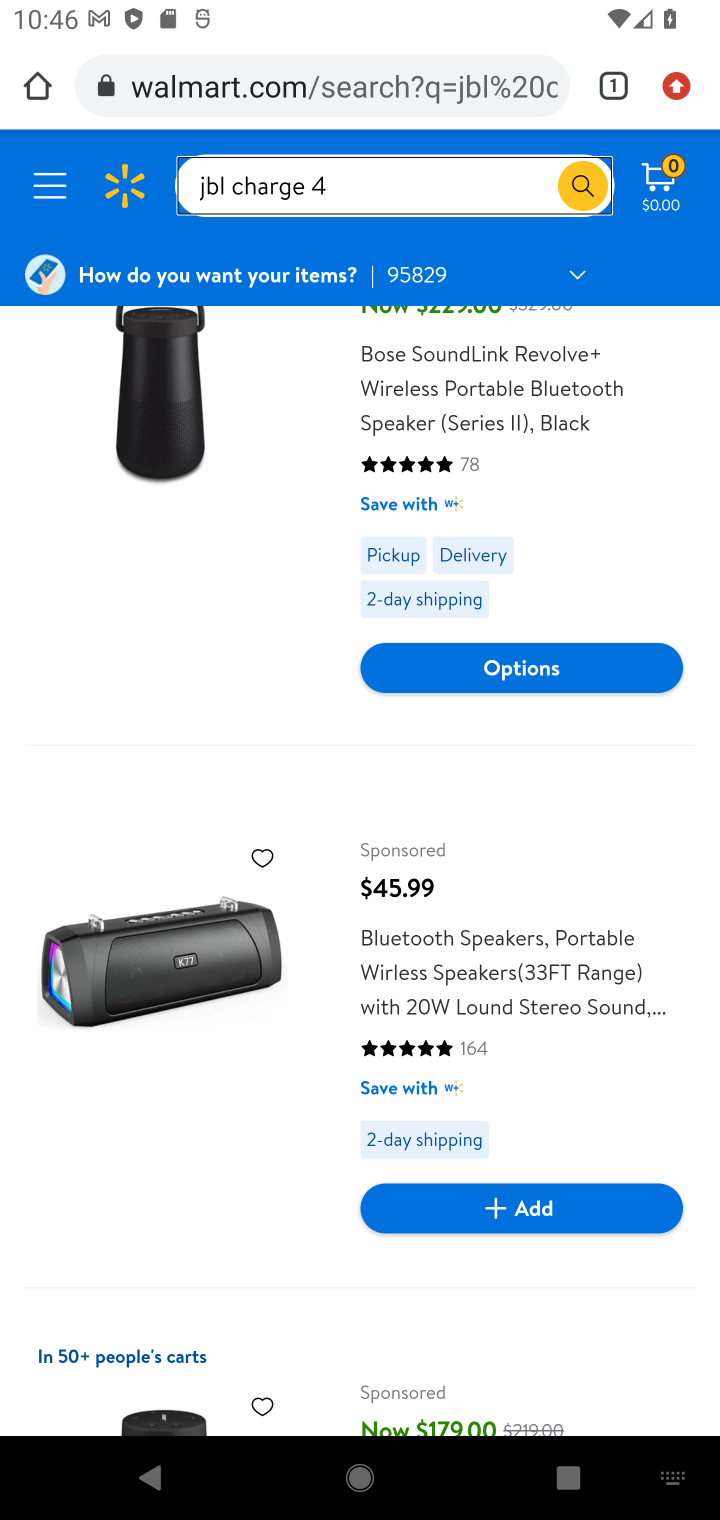
Step 29: drag from (407, 1094) to (363, 594)
Your task to perform on an android device: Clear the shopping cart on walmart. Add "jbl charge 4" to the cart on walmart, then select checkout. Image 30: 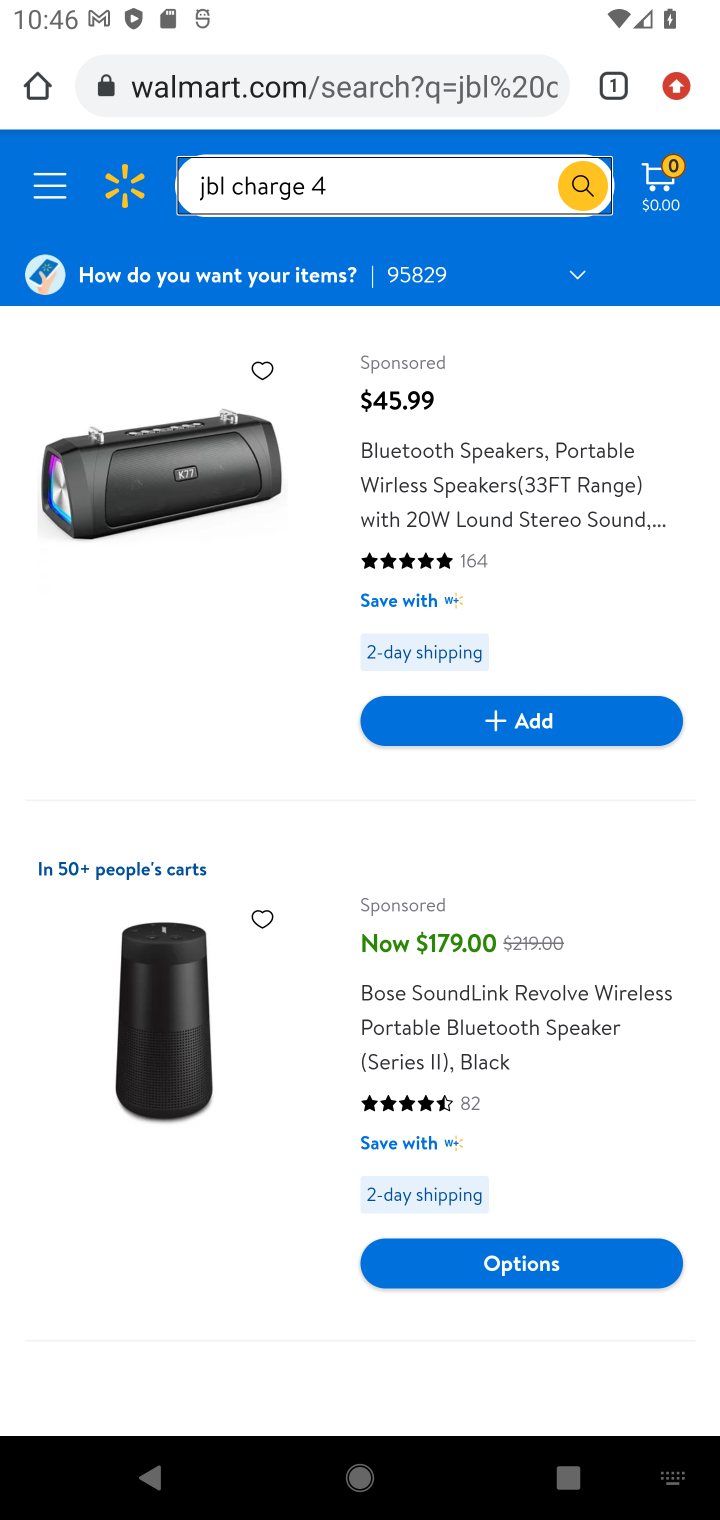
Step 30: drag from (415, 1092) to (359, 659)
Your task to perform on an android device: Clear the shopping cart on walmart. Add "jbl charge 4" to the cart on walmart, then select checkout. Image 31: 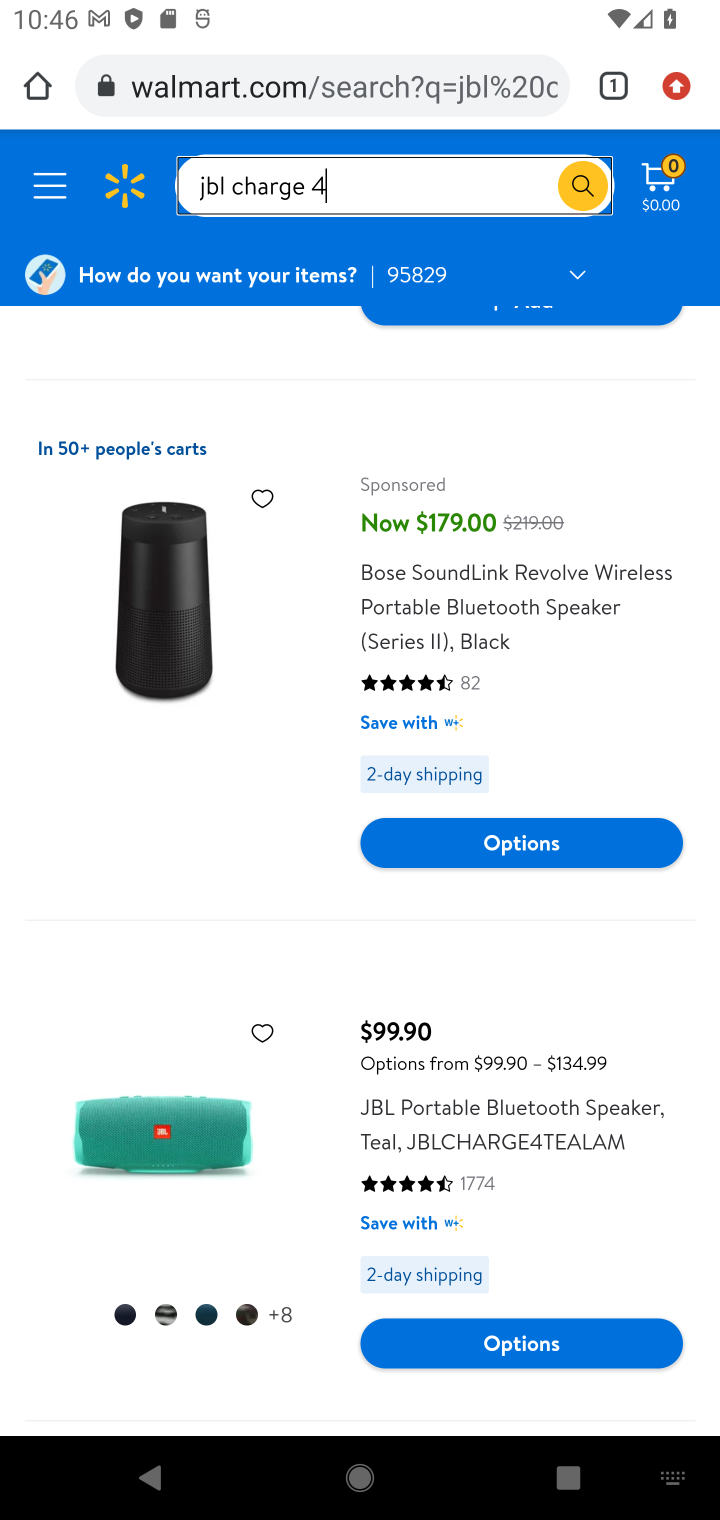
Step 31: click (509, 1142)
Your task to perform on an android device: Clear the shopping cart on walmart. Add "jbl charge 4" to the cart on walmart, then select checkout. Image 32: 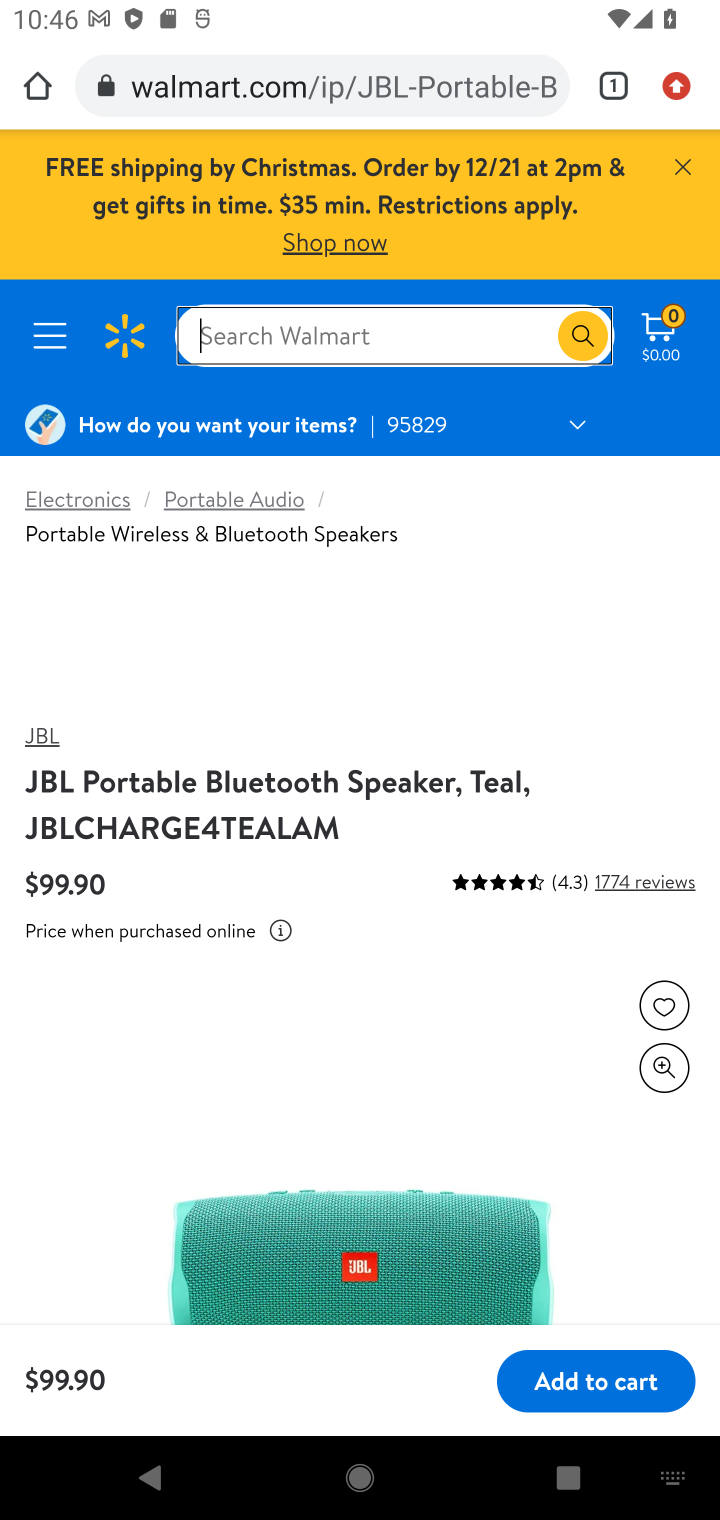
Step 32: click (609, 1391)
Your task to perform on an android device: Clear the shopping cart on walmart. Add "jbl charge 4" to the cart on walmart, then select checkout. Image 33: 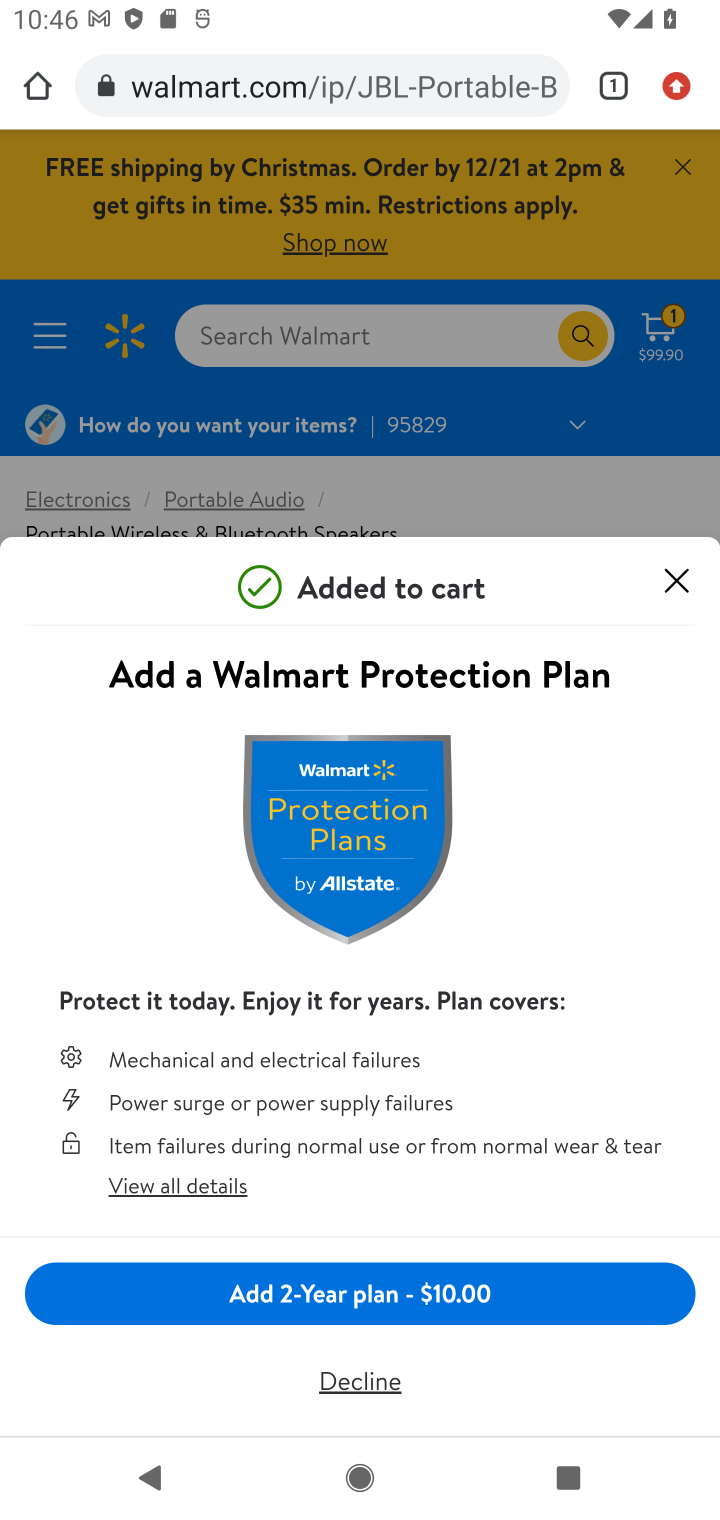
Step 33: click (675, 590)
Your task to perform on an android device: Clear the shopping cart on walmart. Add "jbl charge 4" to the cart on walmart, then select checkout. Image 34: 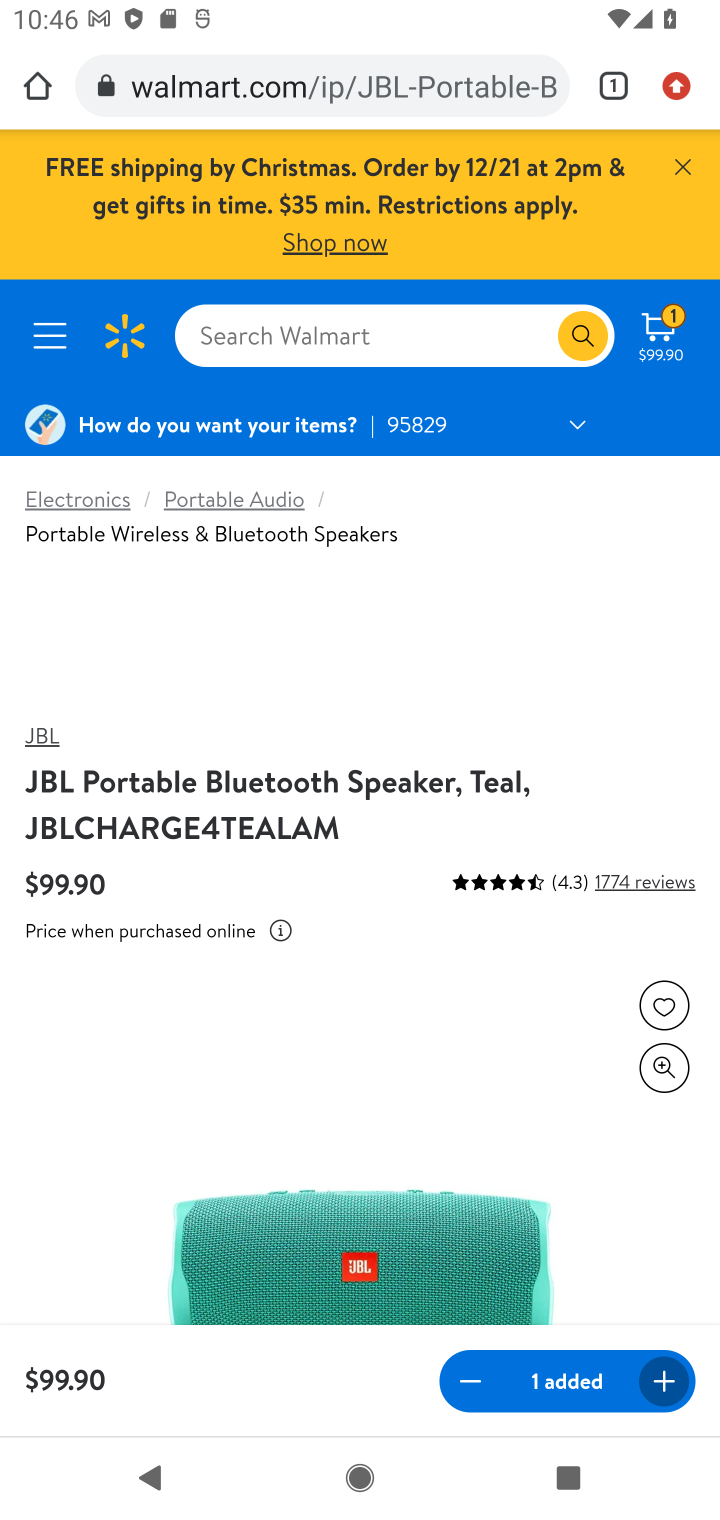
Step 34: click (663, 331)
Your task to perform on an android device: Clear the shopping cart on walmart. Add "jbl charge 4" to the cart on walmart, then select checkout. Image 35: 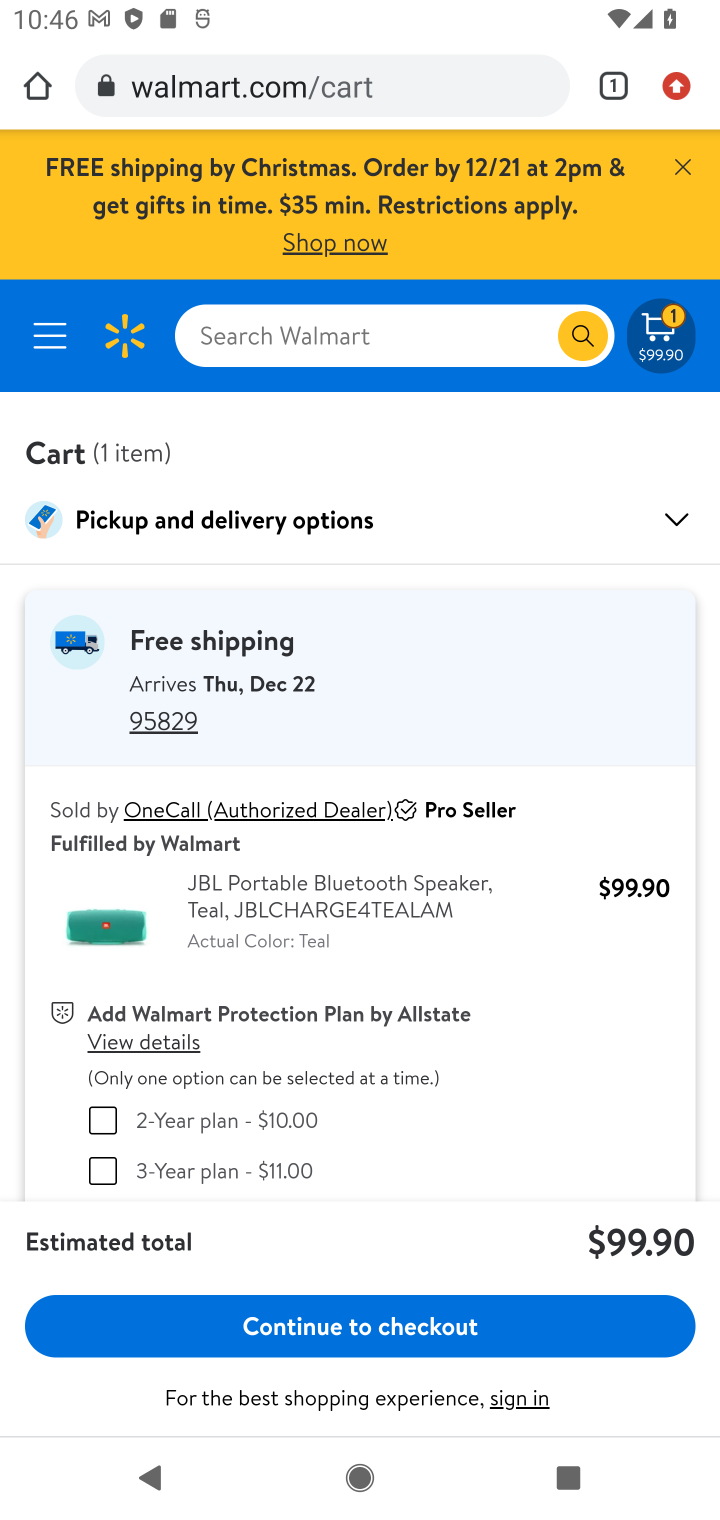
Step 35: click (375, 1340)
Your task to perform on an android device: Clear the shopping cart on walmart. Add "jbl charge 4" to the cart on walmart, then select checkout. Image 36: 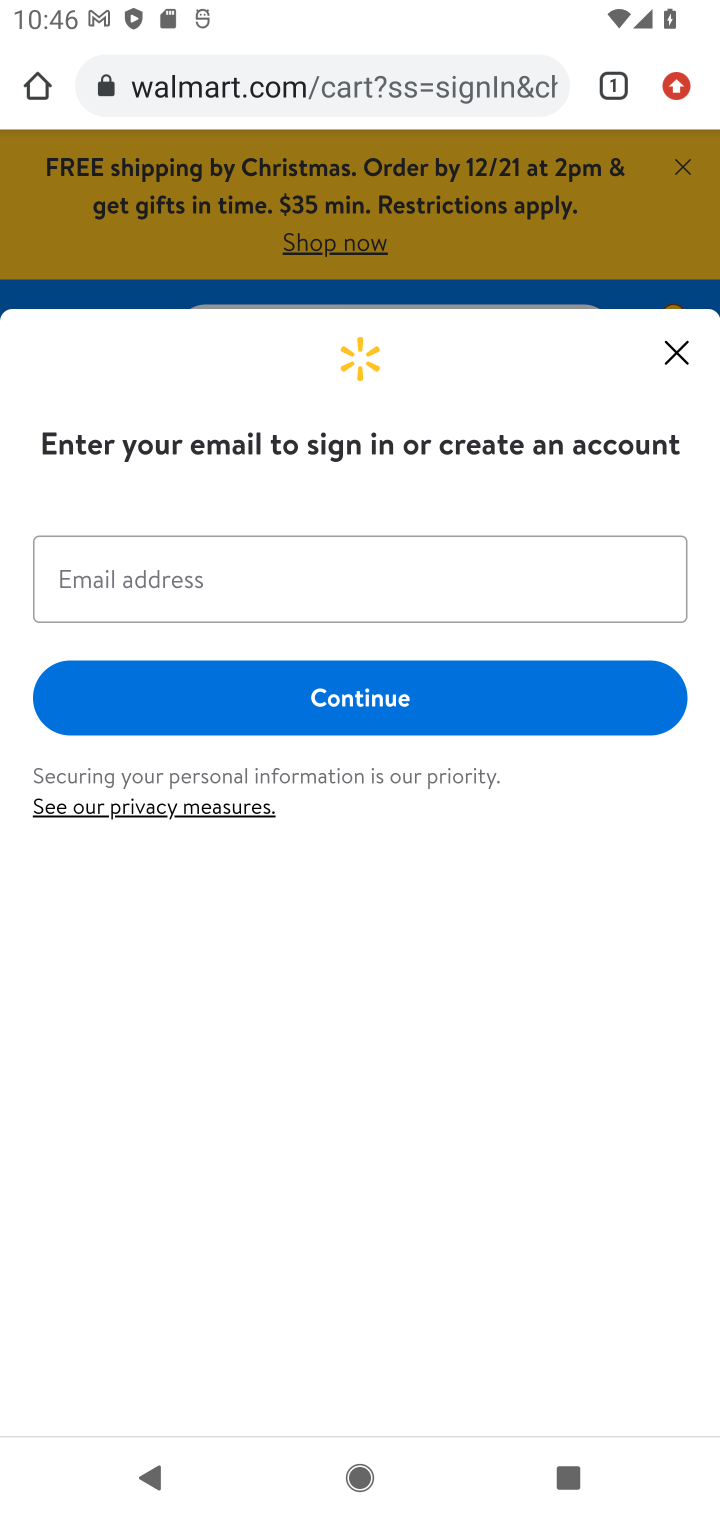
Step 36: task complete